Your task to perform on an android device: Search for a new bronzer Image 0: 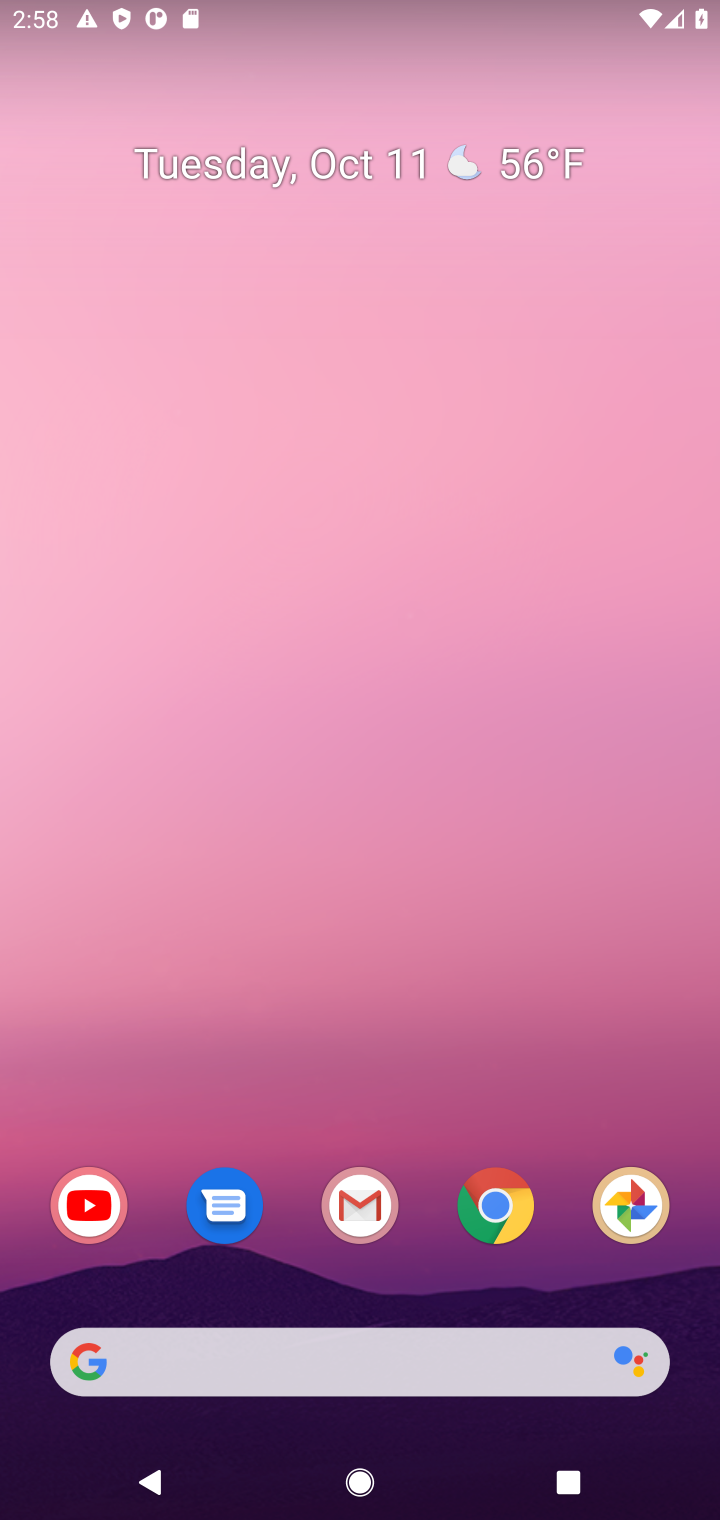
Step 0: press home button
Your task to perform on an android device: Search for a new bronzer Image 1: 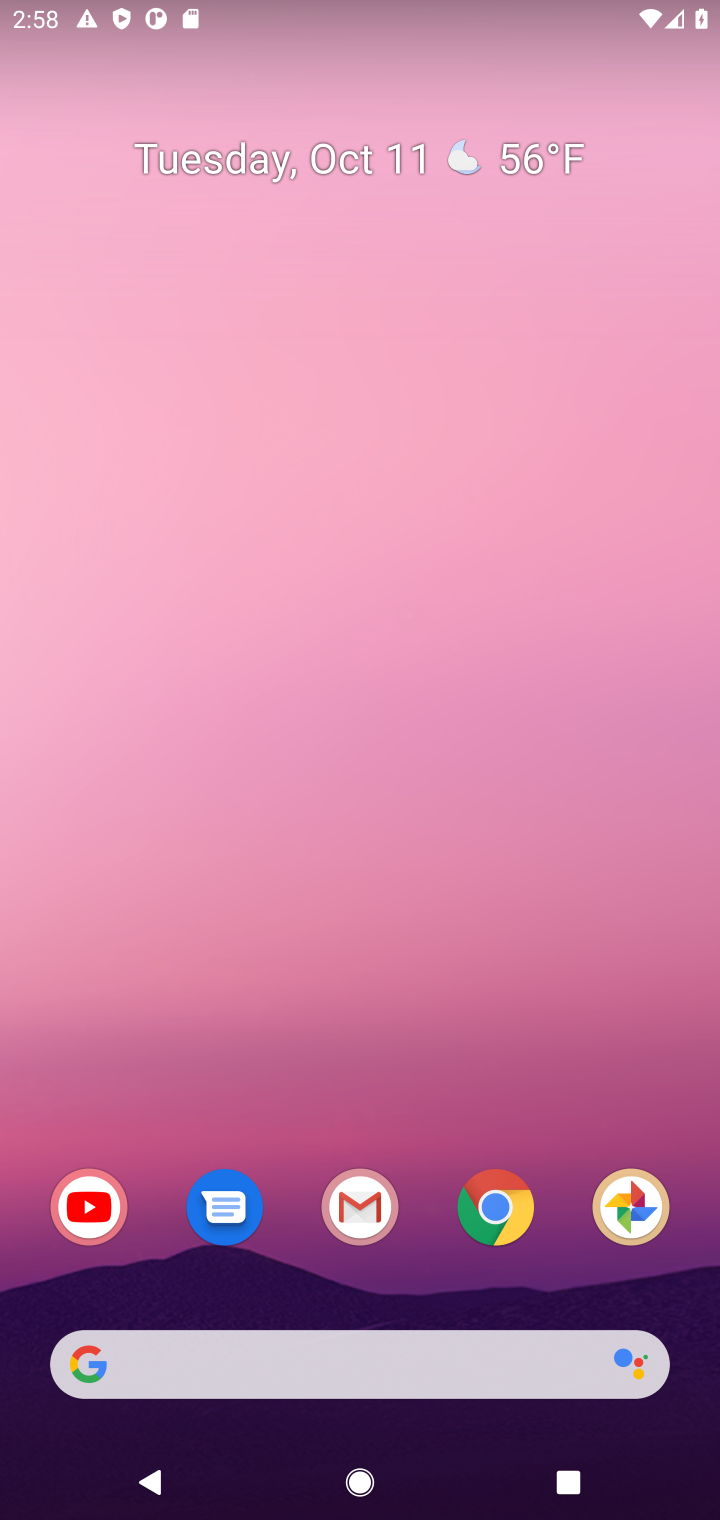
Step 1: drag from (392, 520) to (395, 187)
Your task to perform on an android device: Search for a new bronzer Image 2: 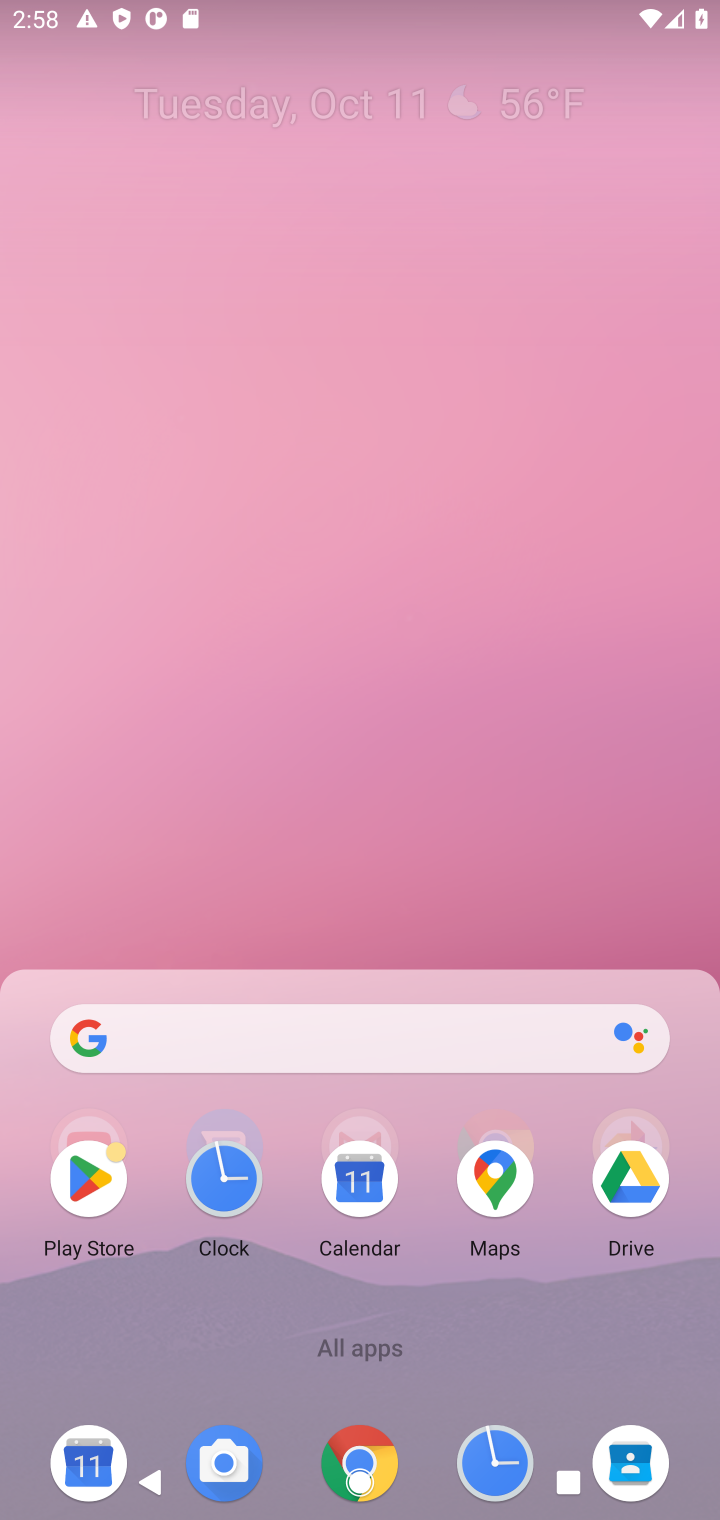
Step 2: drag from (305, 1078) to (478, 214)
Your task to perform on an android device: Search for a new bronzer Image 3: 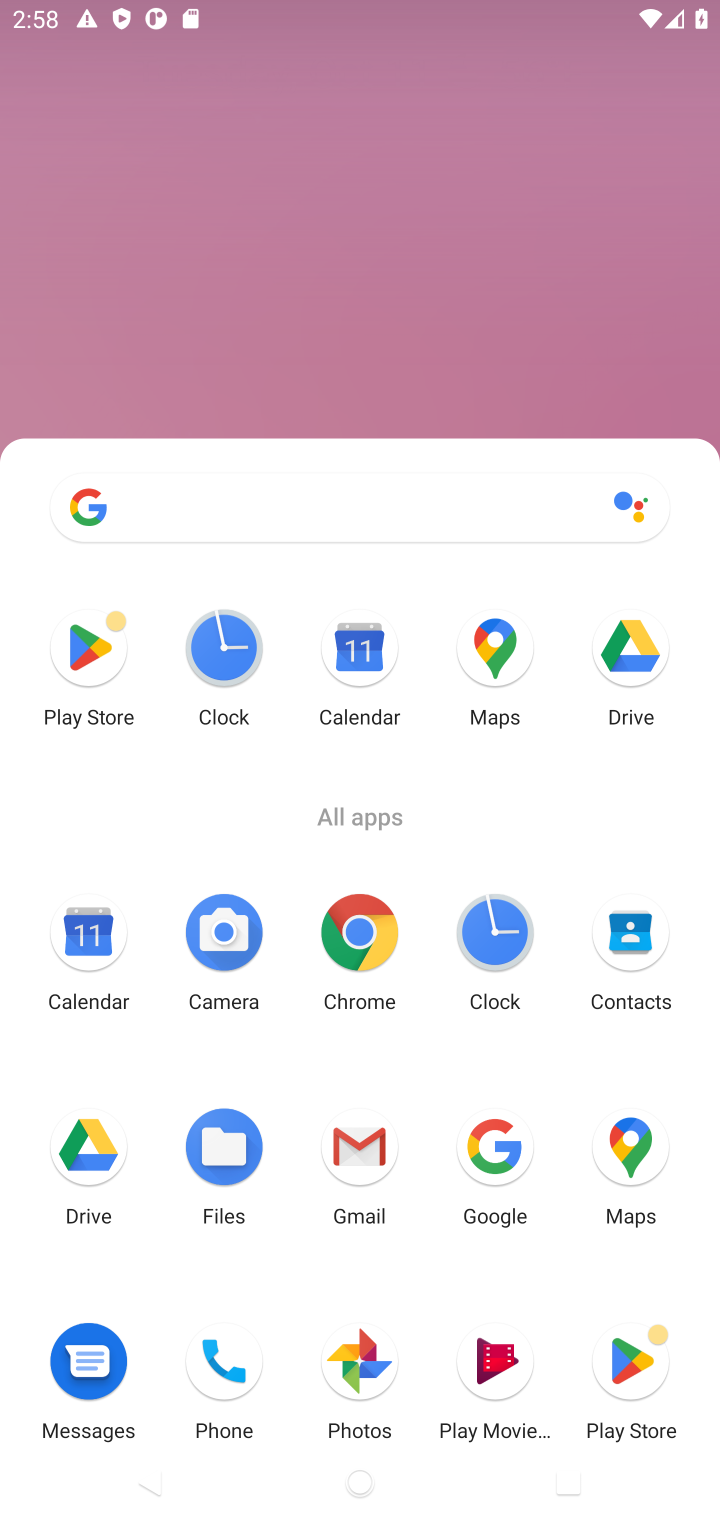
Step 3: drag from (355, 1203) to (644, 112)
Your task to perform on an android device: Search for a new bronzer Image 4: 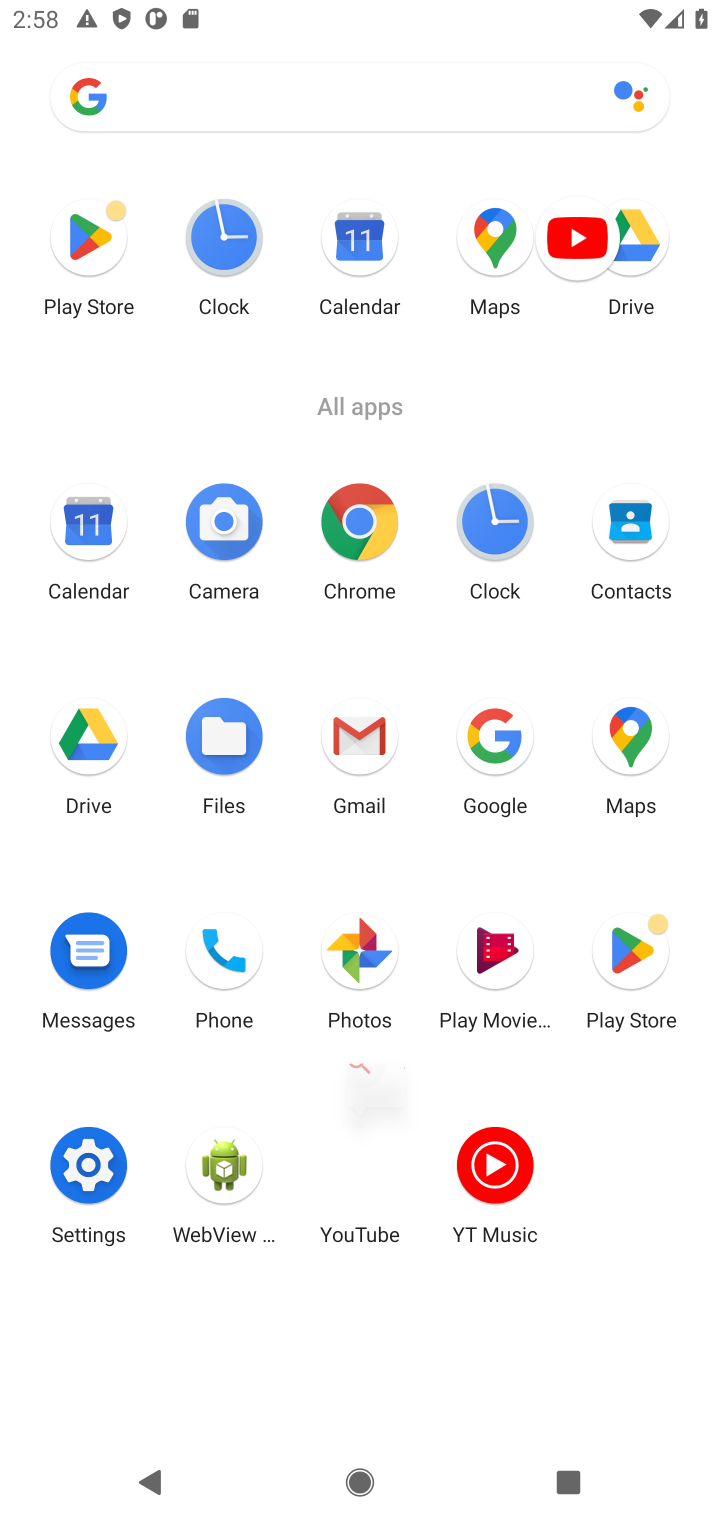
Step 4: click (245, 234)
Your task to perform on an android device: Search for a new bronzer Image 5: 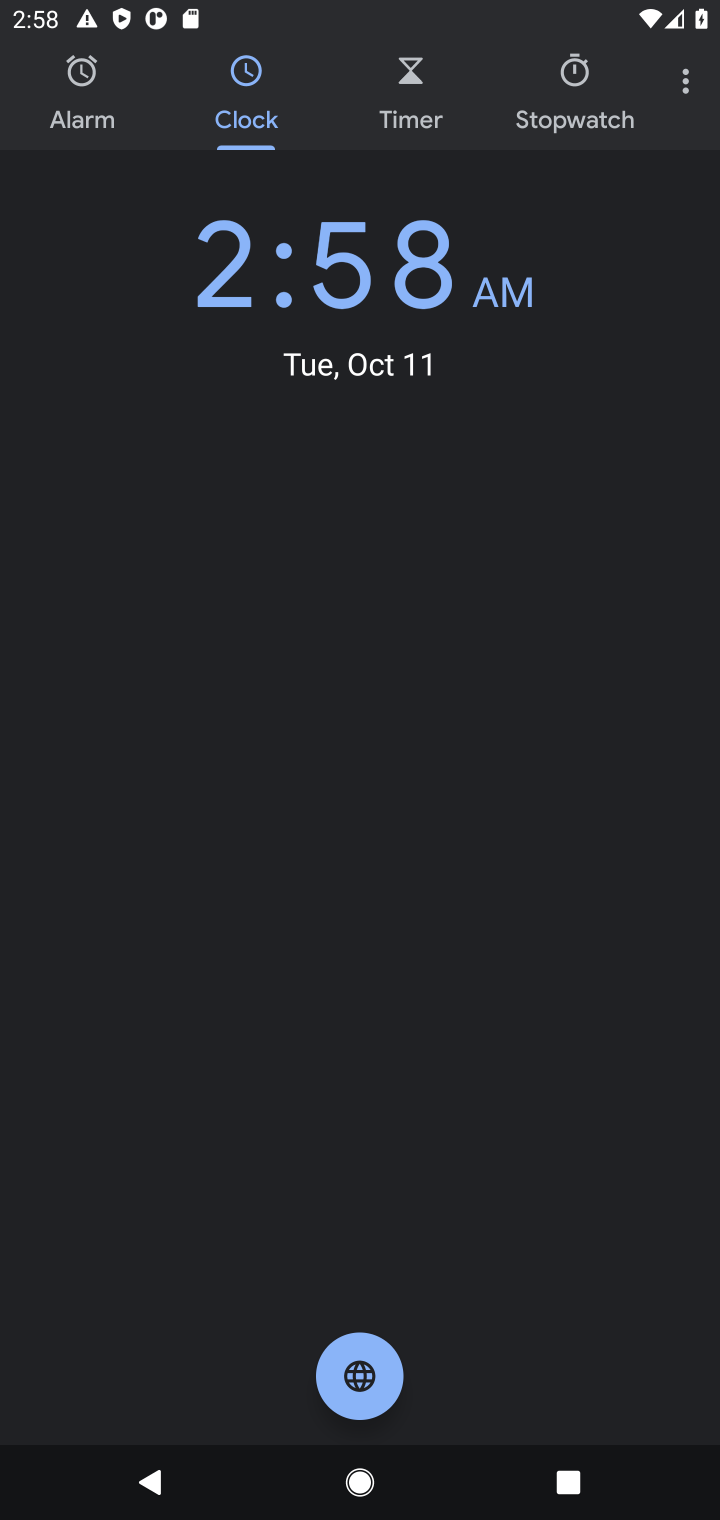
Step 5: press home button
Your task to perform on an android device: Search for a new bronzer Image 6: 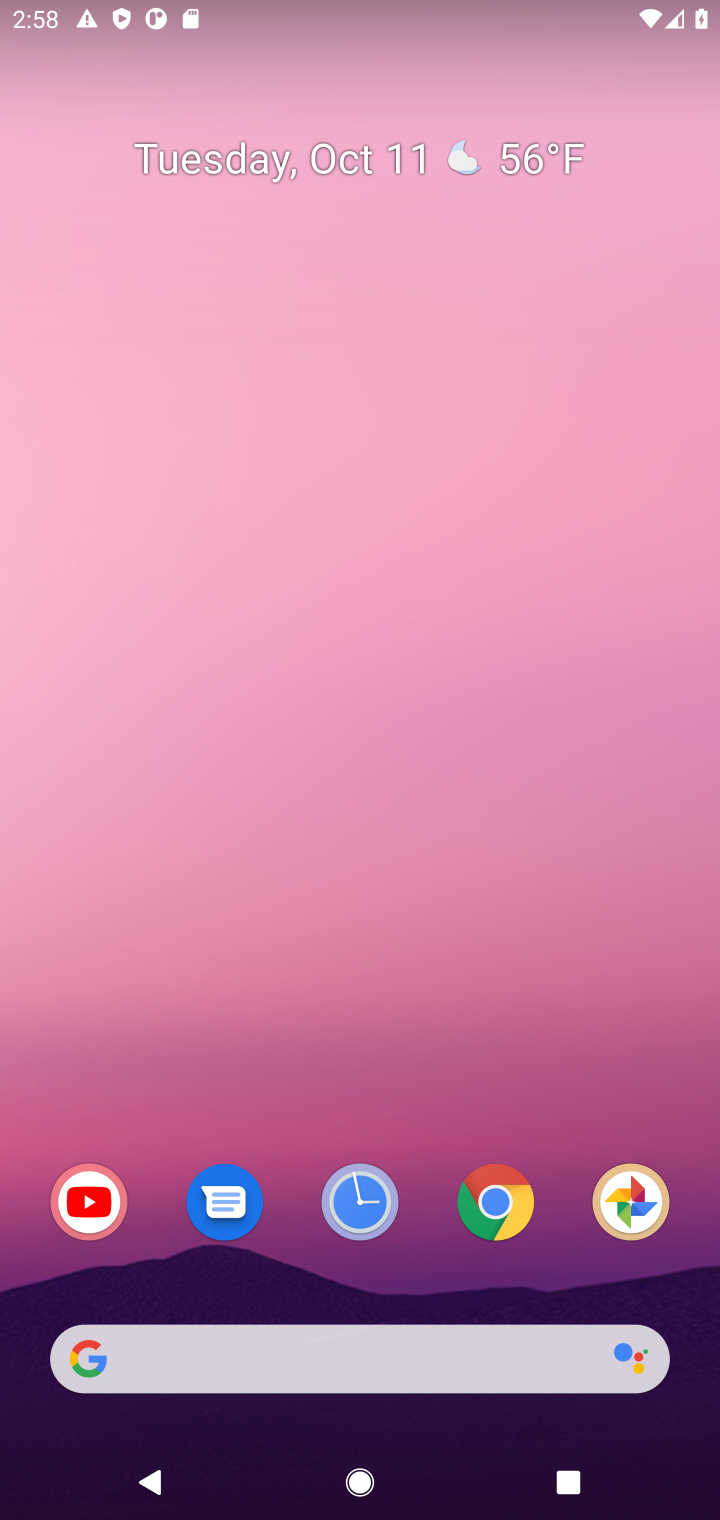
Step 6: click (496, 1201)
Your task to perform on an android device: Search for a new bronzer Image 7: 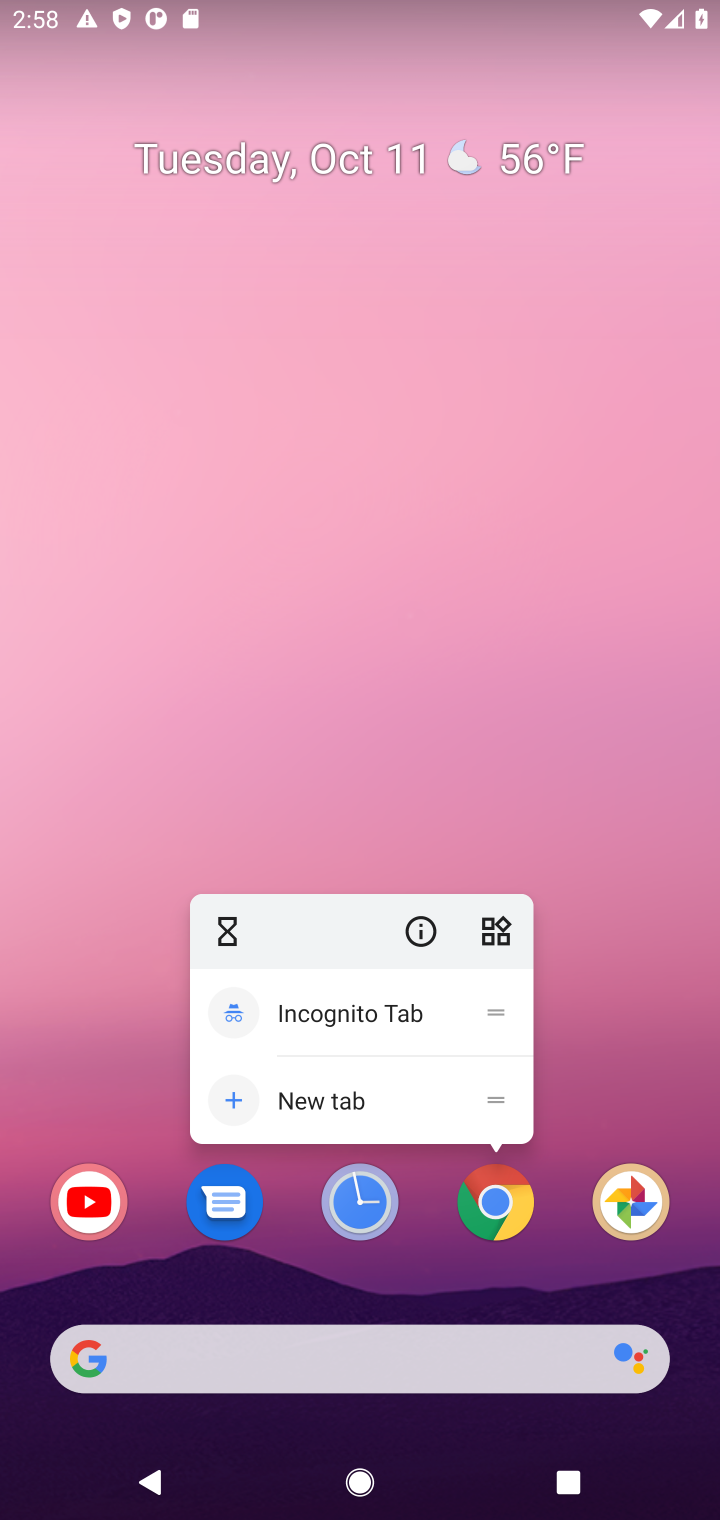
Step 7: click (486, 1209)
Your task to perform on an android device: Search for a new bronzer Image 8: 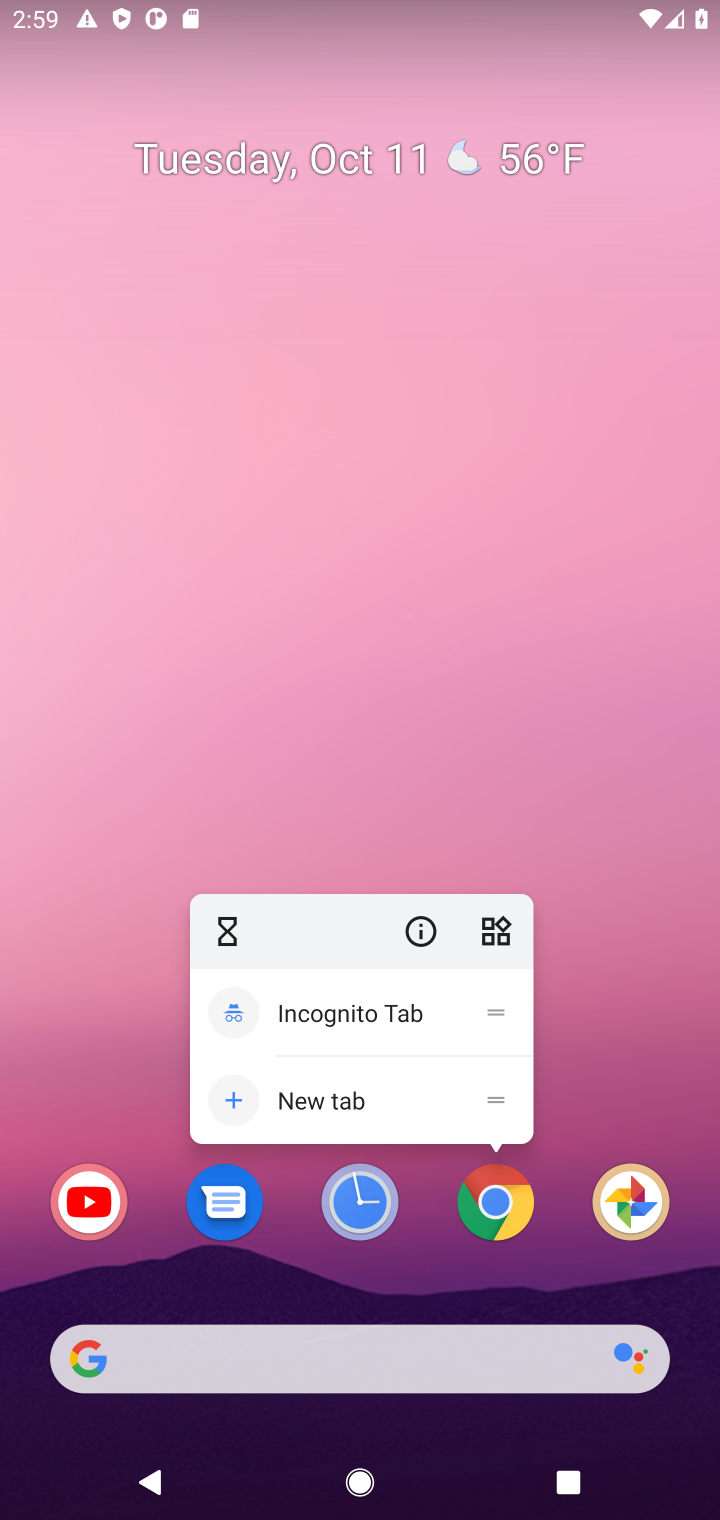
Step 8: click (484, 1210)
Your task to perform on an android device: Search for a new bronzer Image 9: 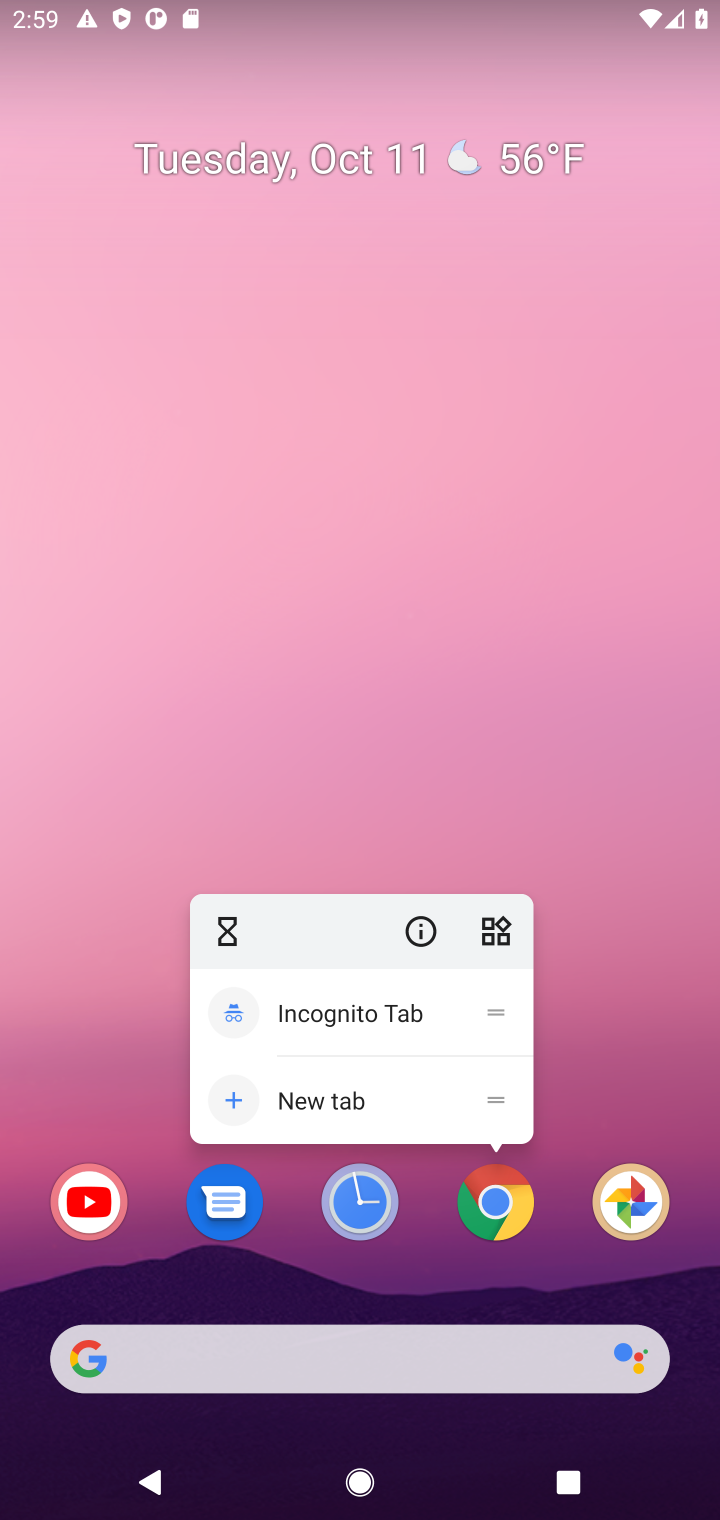
Step 9: click (502, 1225)
Your task to perform on an android device: Search for a new bronzer Image 10: 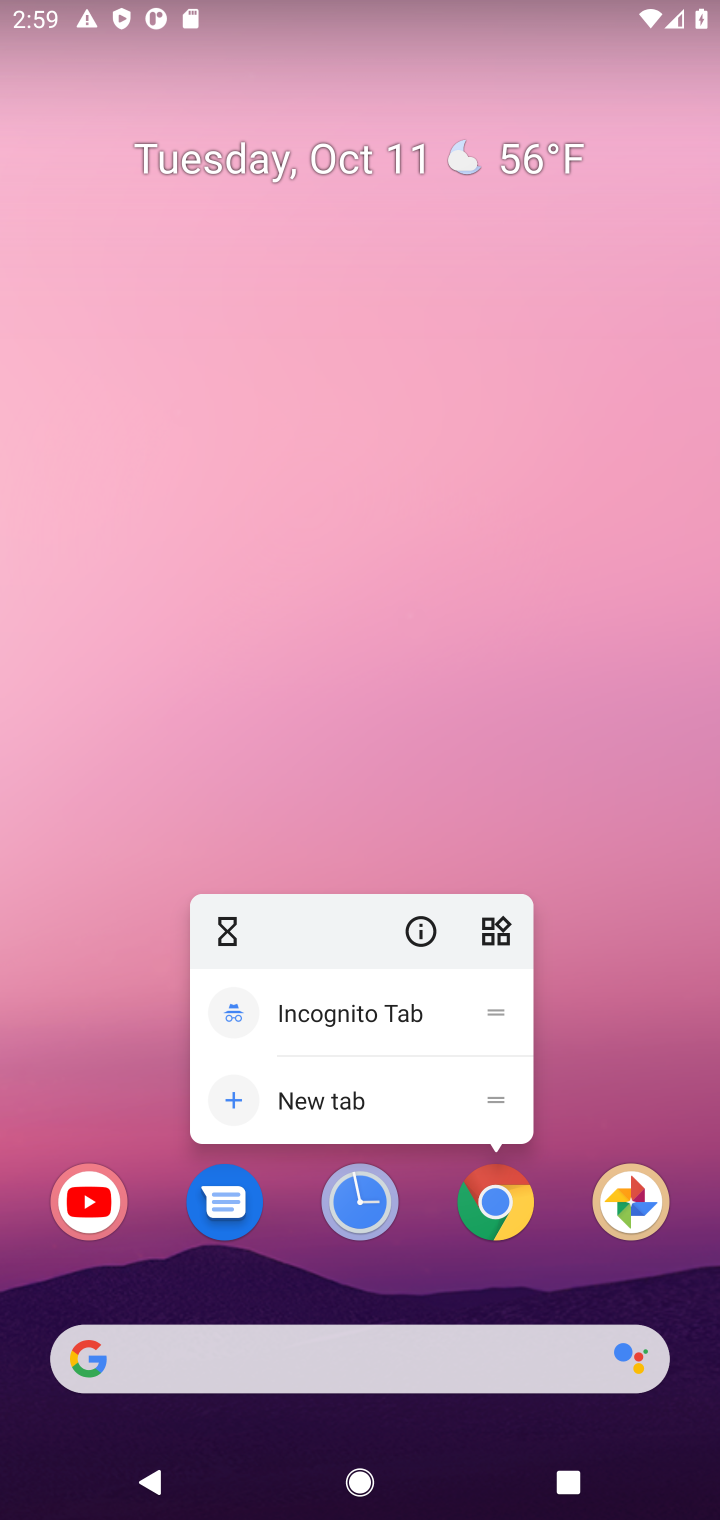
Step 10: click (502, 1225)
Your task to perform on an android device: Search for a new bronzer Image 11: 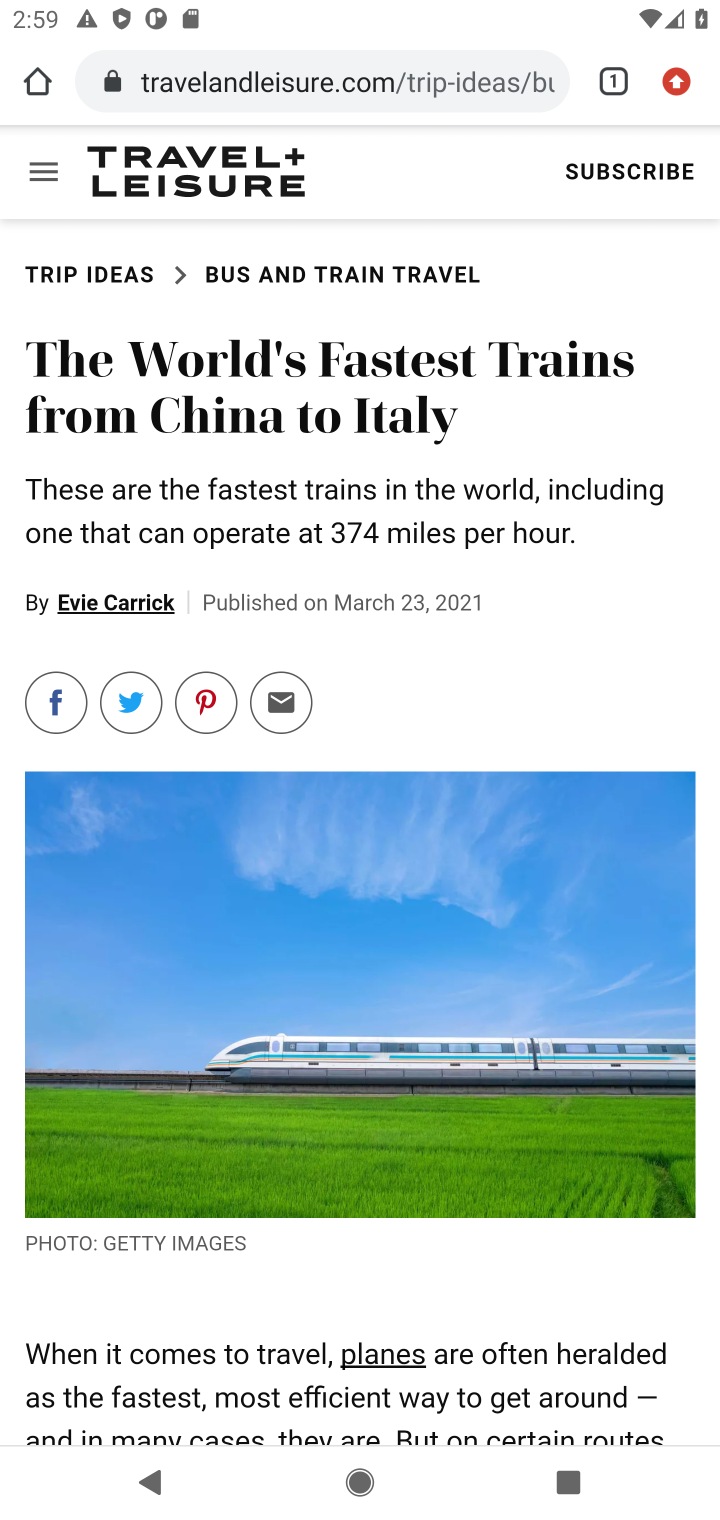
Step 11: click (302, 76)
Your task to perform on an android device: Search for a new bronzer Image 12: 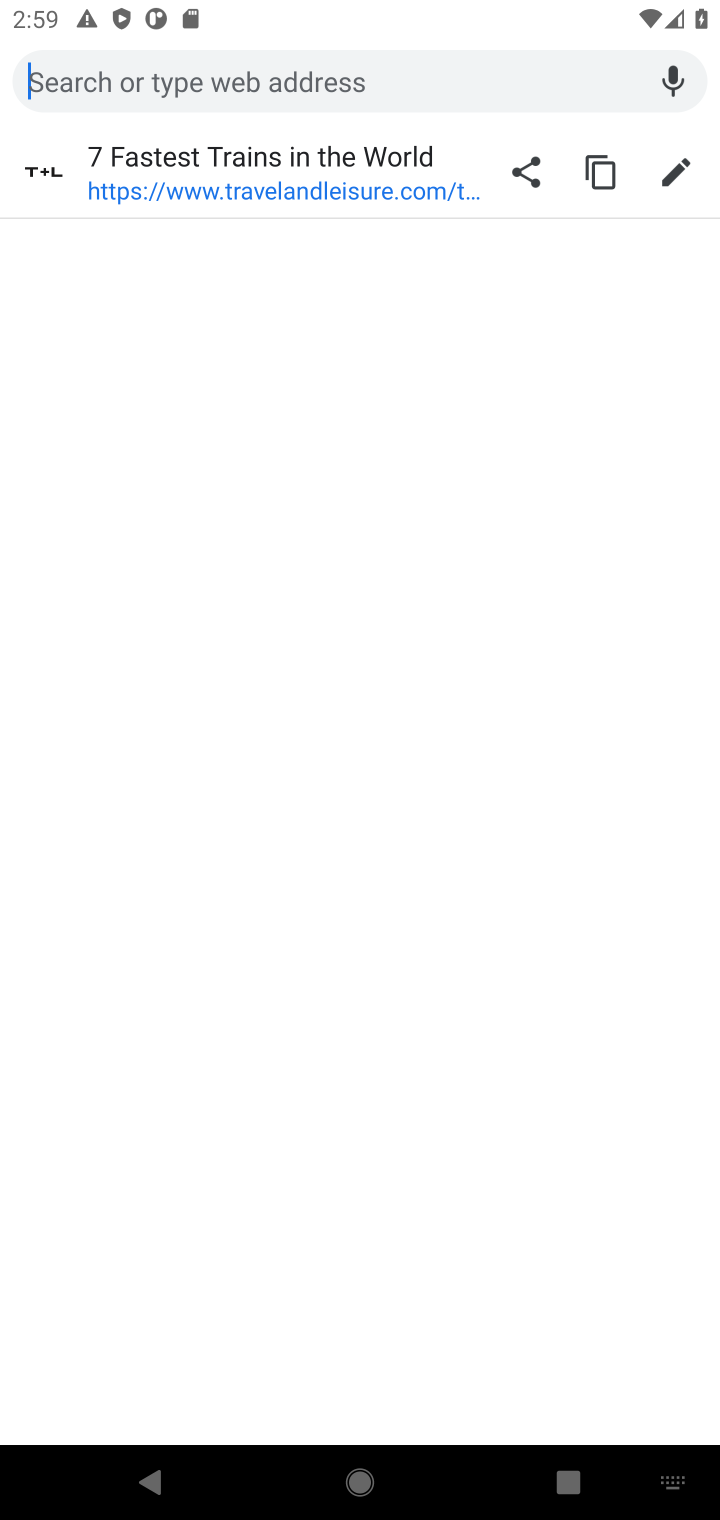
Step 12: type "a new bronzer"
Your task to perform on an android device: Search for a new bronzer Image 13: 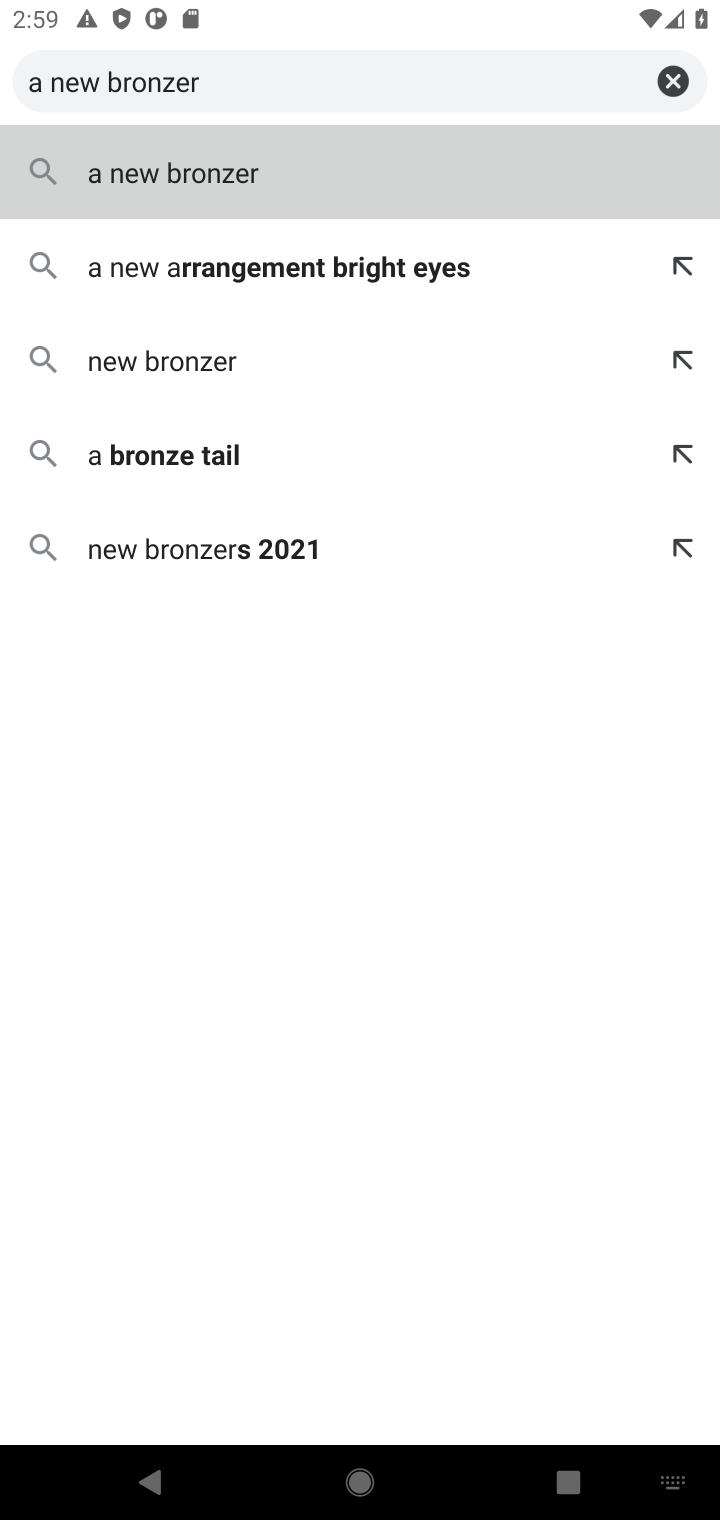
Step 13: type ""
Your task to perform on an android device: Search for a new bronzer Image 14: 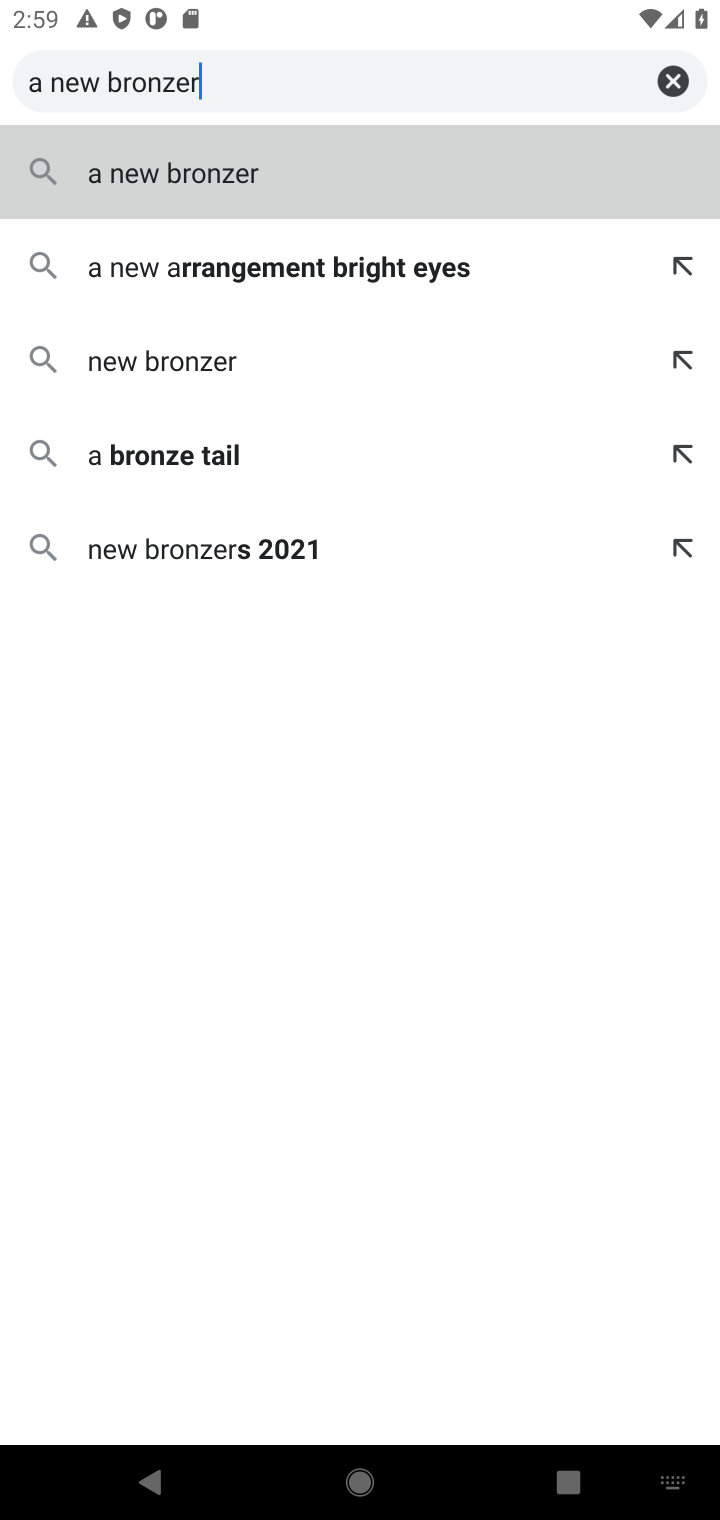
Step 14: click (143, 151)
Your task to perform on an android device: Search for a new bronzer Image 15: 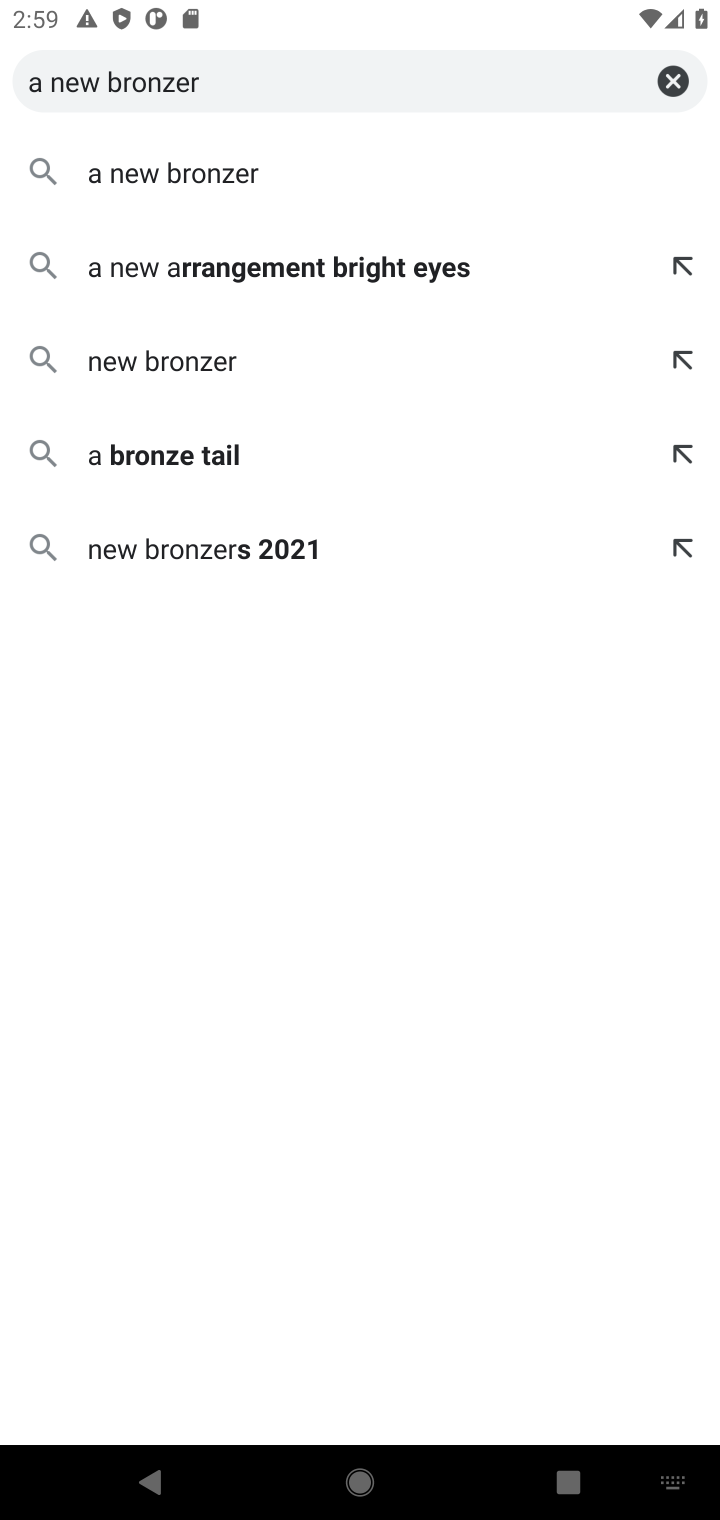
Step 15: click (128, 224)
Your task to perform on an android device: Search for a new bronzer Image 16: 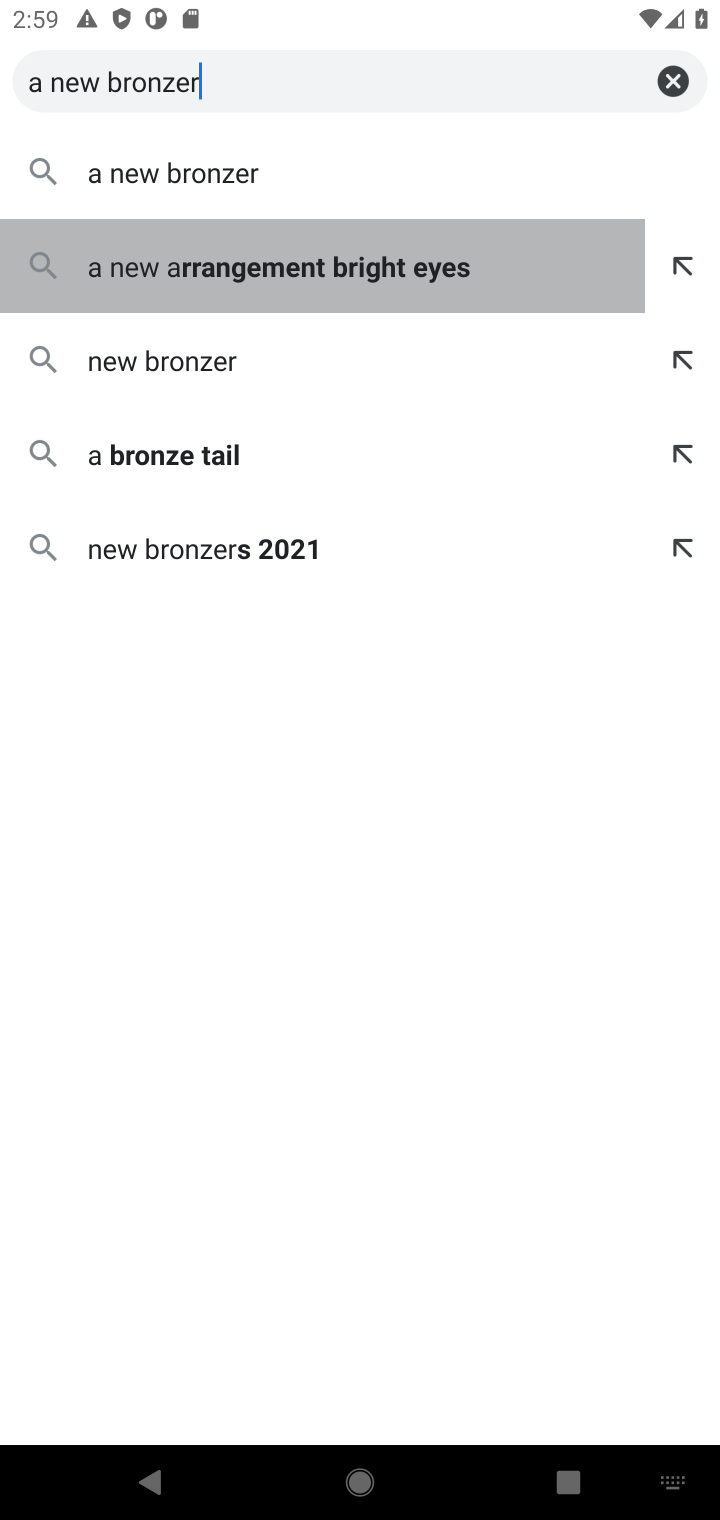
Step 16: click (148, 201)
Your task to perform on an android device: Search for a new bronzer Image 17: 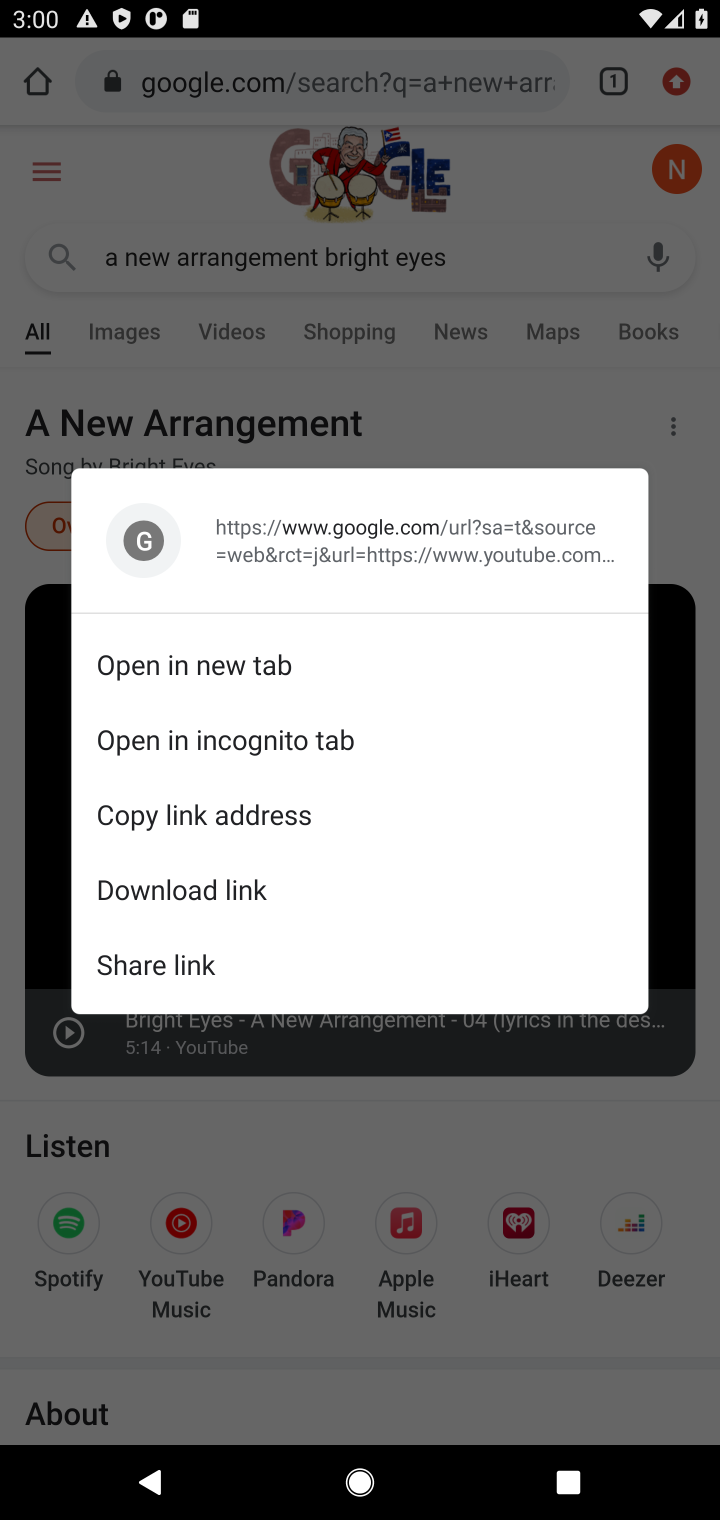
Step 17: click (605, 399)
Your task to perform on an android device: Search for a new bronzer Image 18: 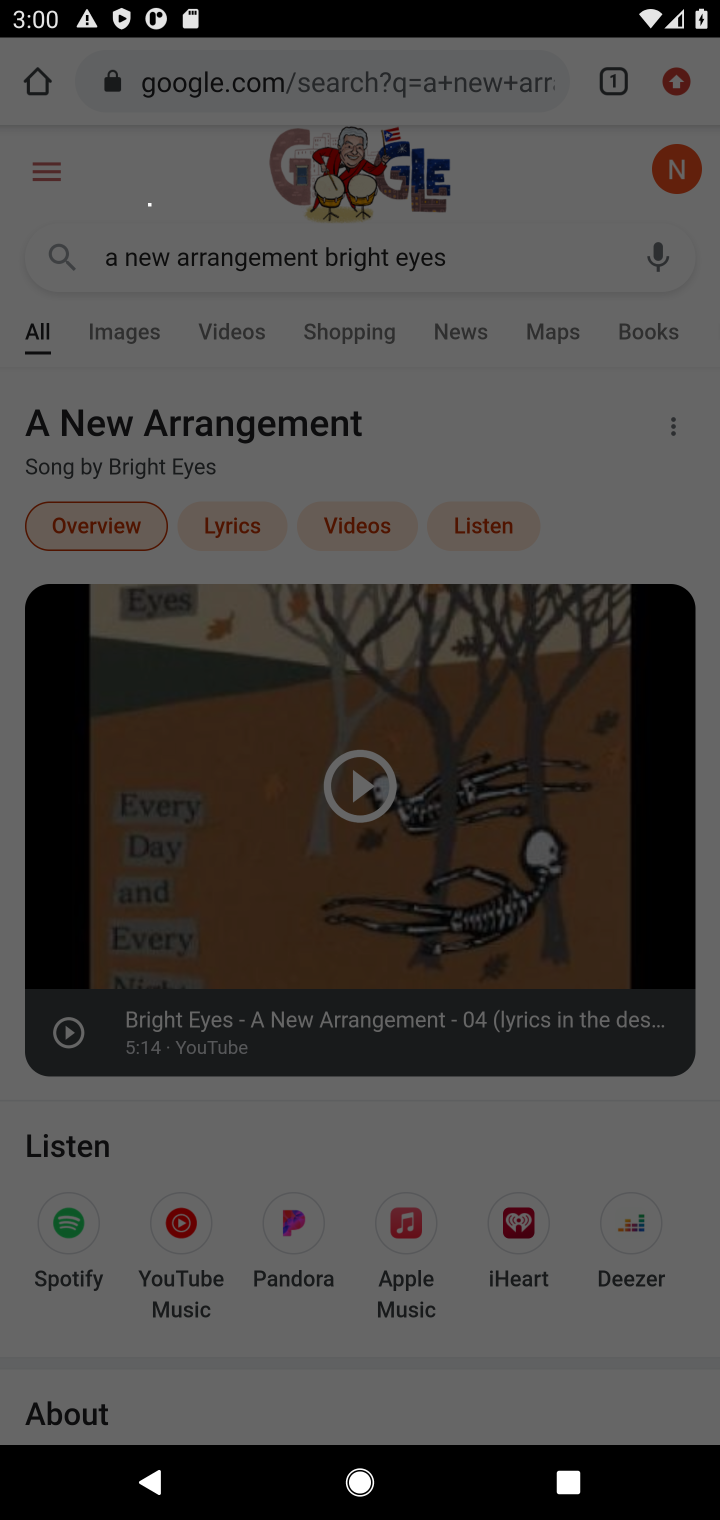
Step 18: click (510, 75)
Your task to perform on an android device: Search for a new bronzer Image 19: 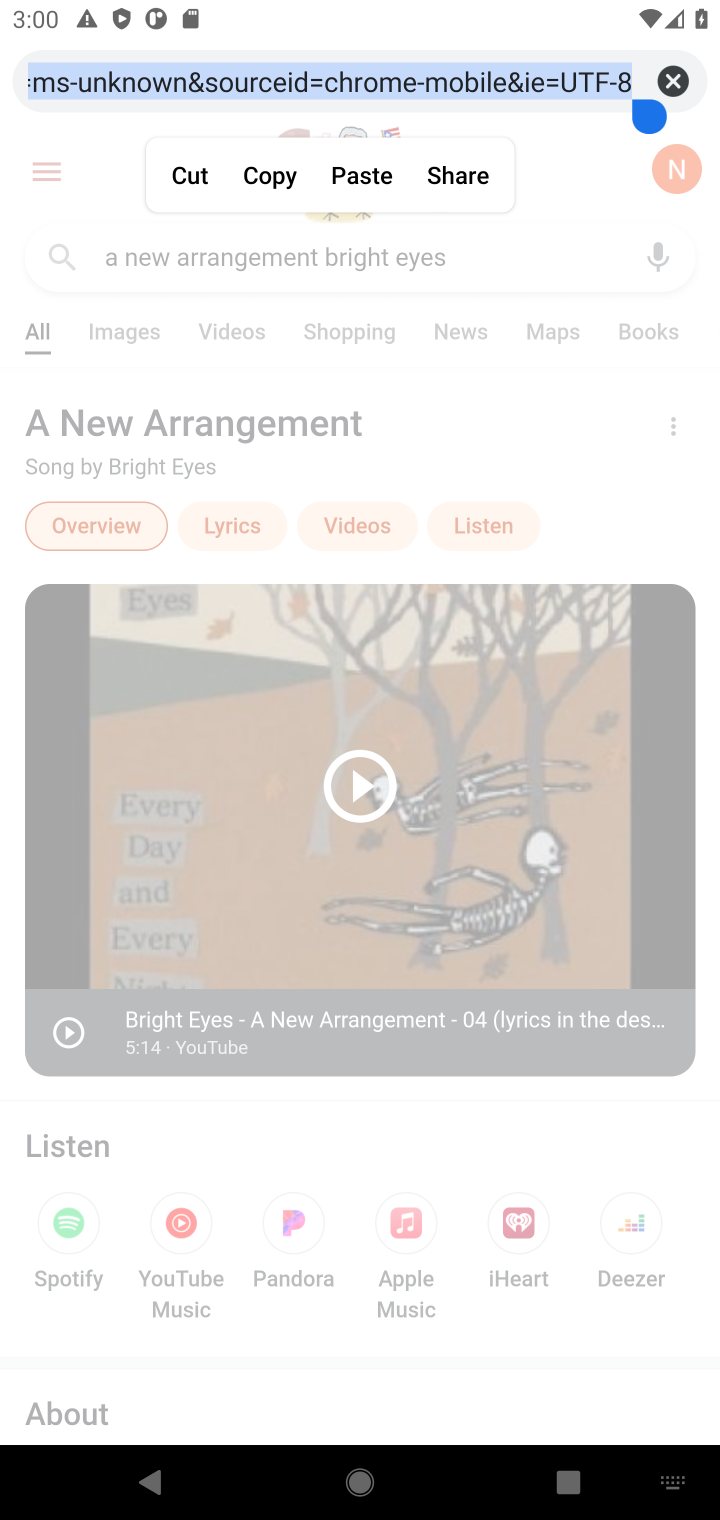
Step 19: type "a new bronzer"
Your task to perform on an android device: Search for a new bronzer Image 20: 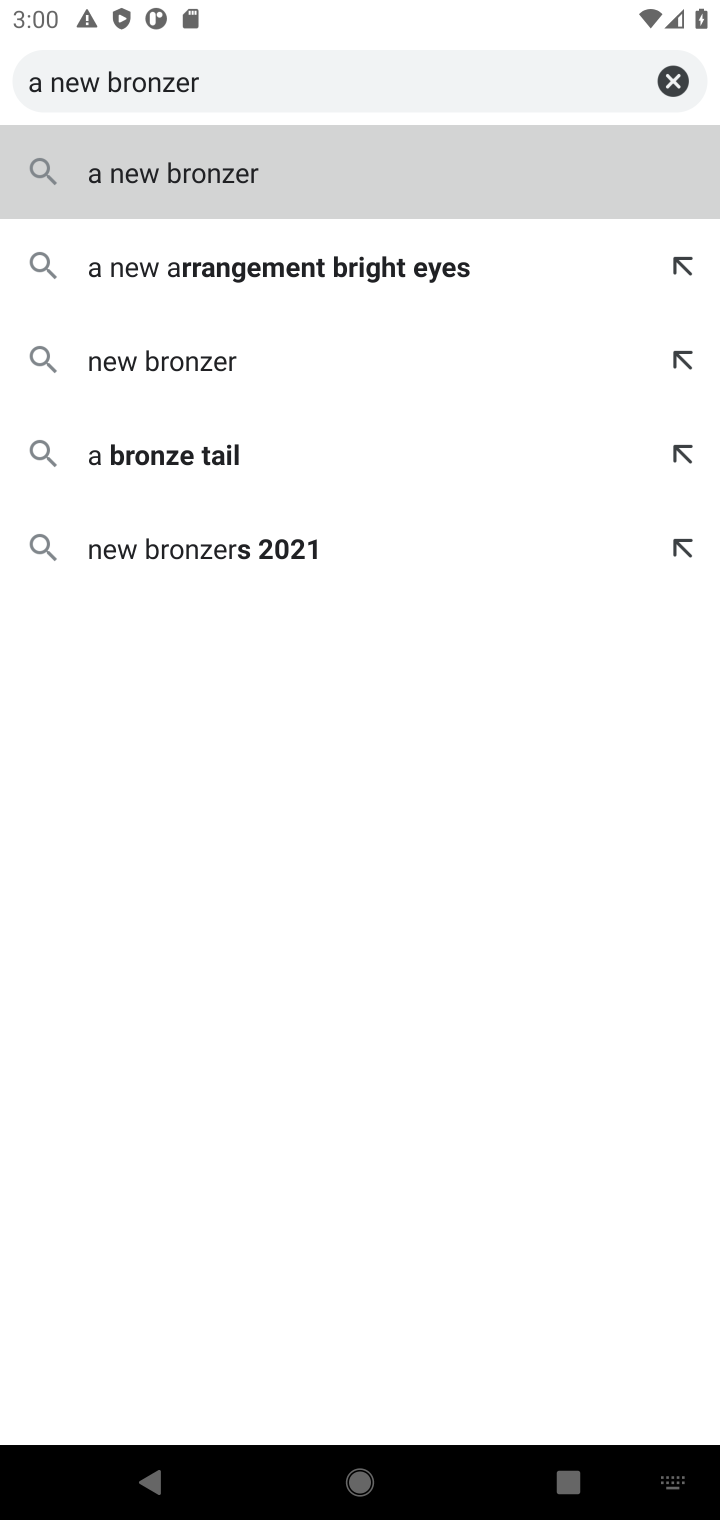
Step 20: type ""
Your task to perform on an android device: Search for a new bronzer Image 21: 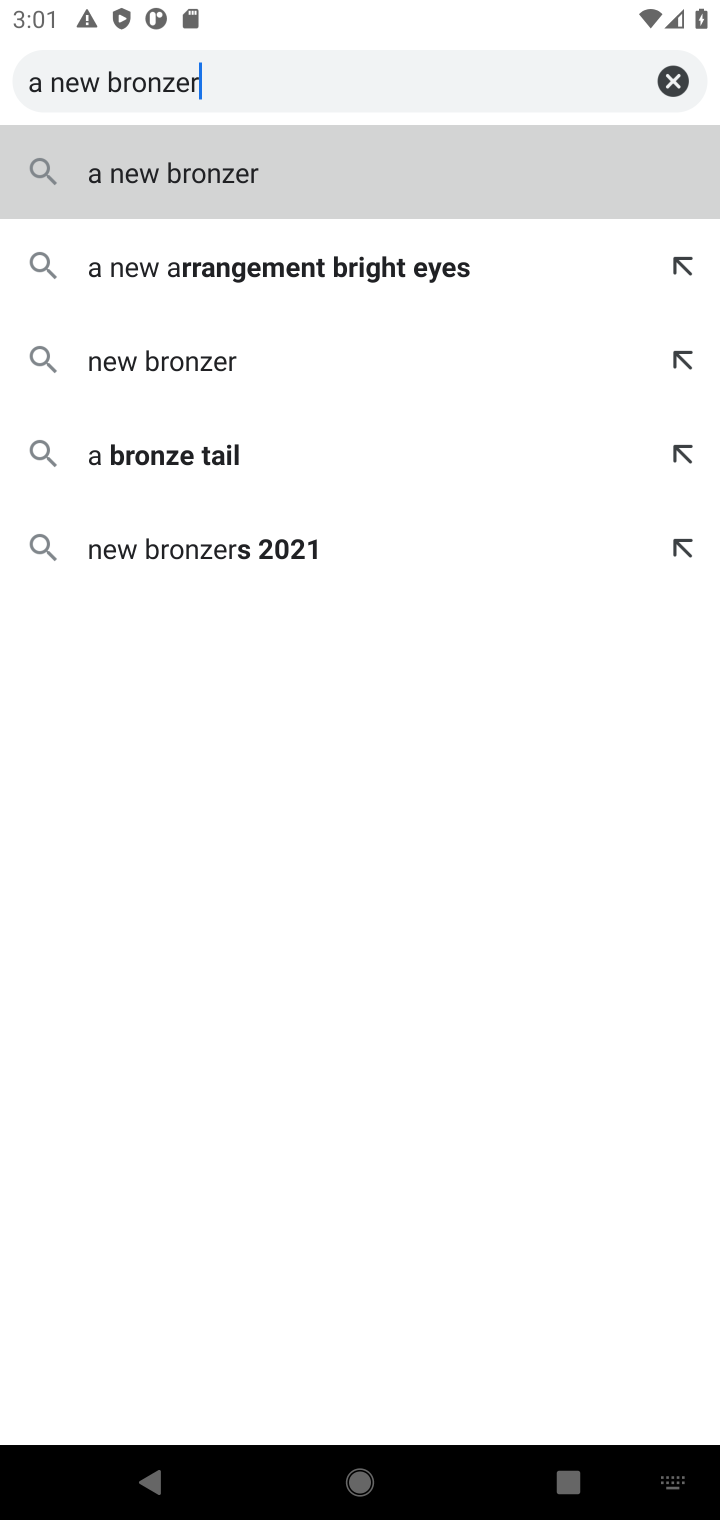
Step 21: press enter
Your task to perform on an android device: Search for a new bronzer Image 22: 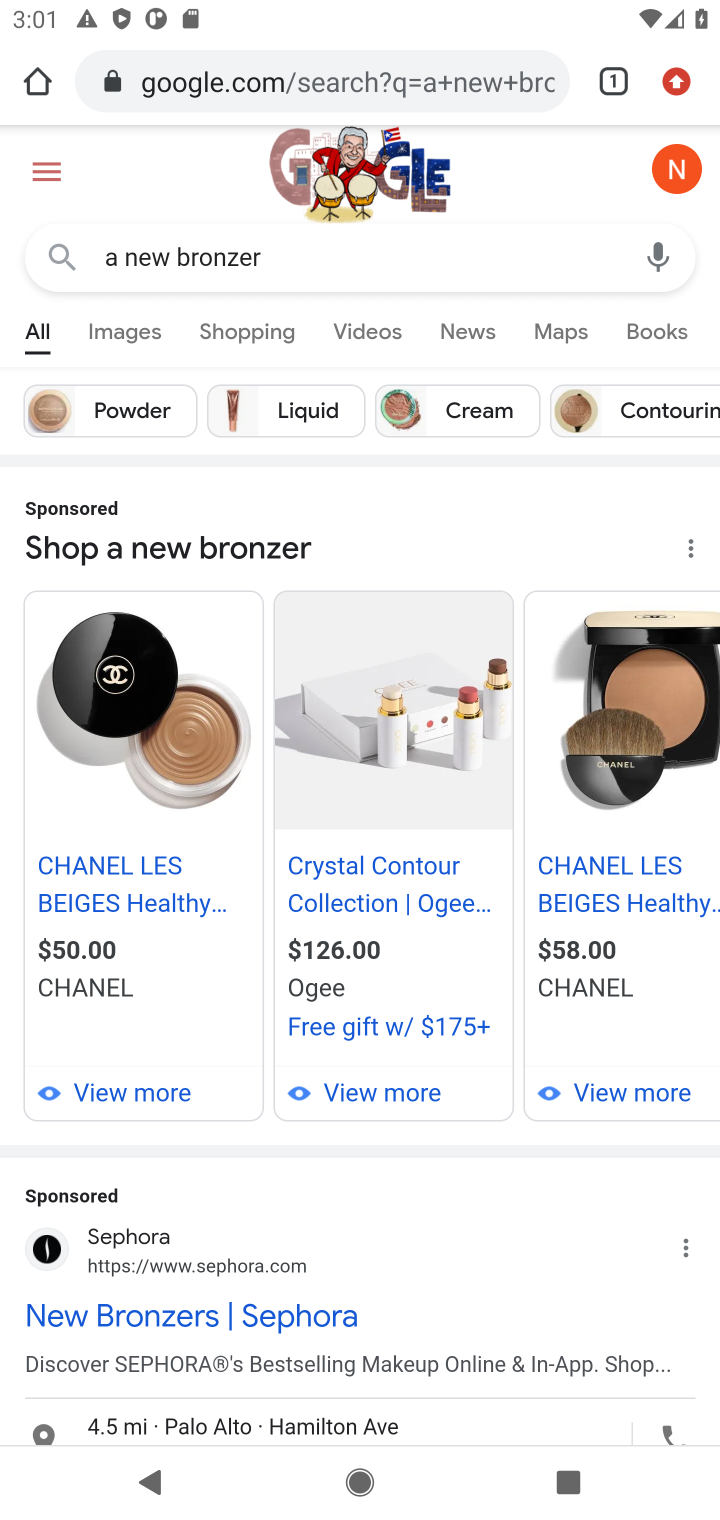
Step 22: click (280, 1322)
Your task to perform on an android device: Search for a new bronzer Image 23: 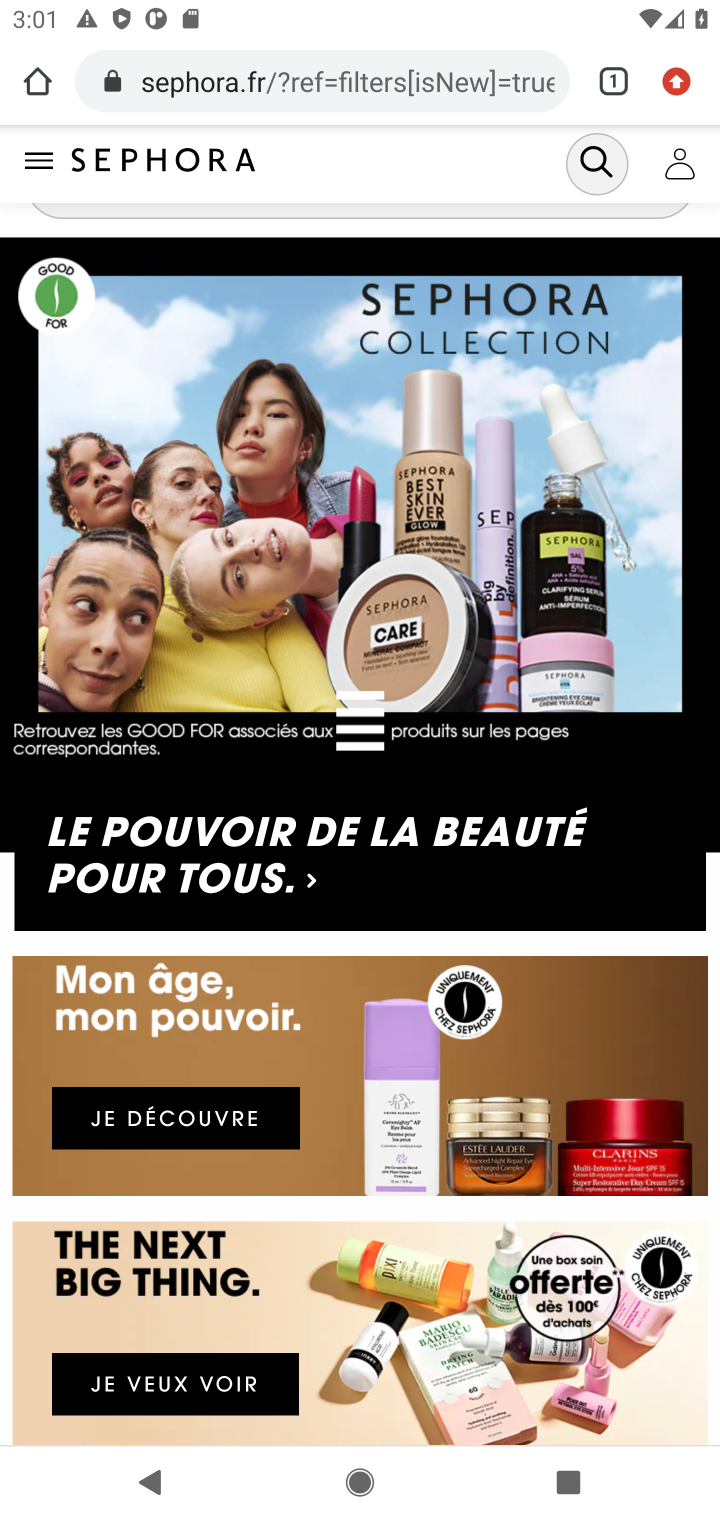
Step 23: click (376, 454)
Your task to perform on an android device: Search for a new bronzer Image 24: 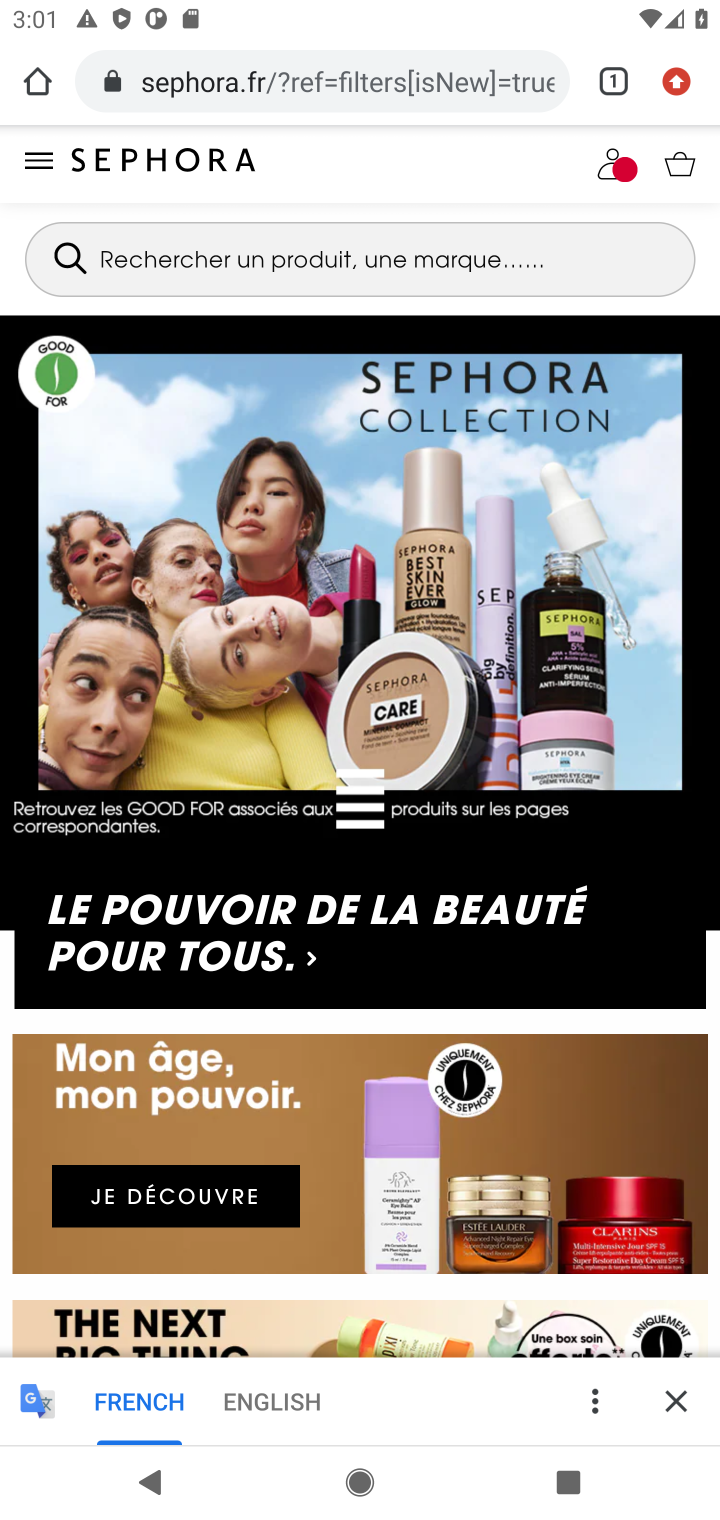
Step 24: drag from (353, 596) to (461, 475)
Your task to perform on an android device: Search for a new bronzer Image 25: 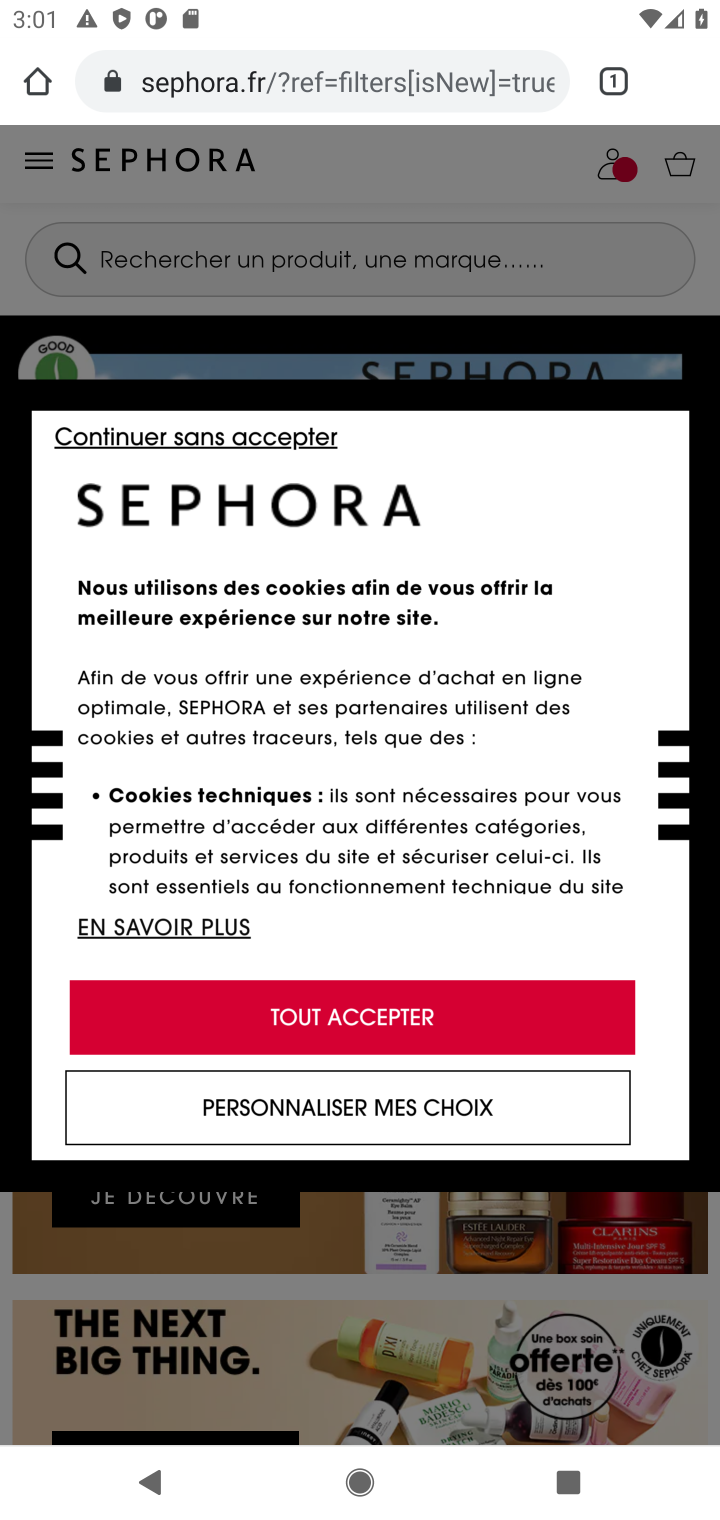
Step 25: drag from (535, 605) to (560, 505)
Your task to perform on an android device: Search for a new bronzer Image 26: 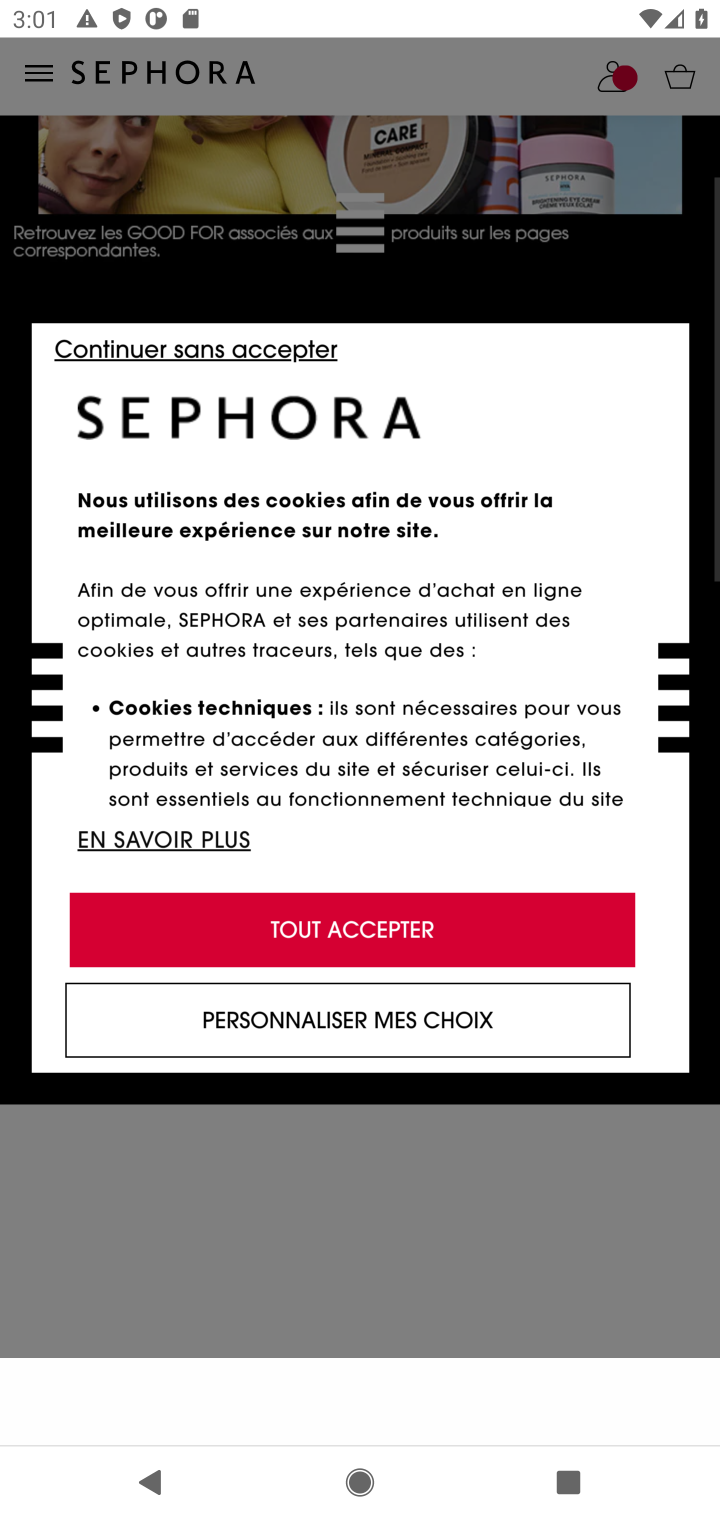
Step 26: drag from (594, 828) to (678, 433)
Your task to perform on an android device: Search for a new bronzer Image 27: 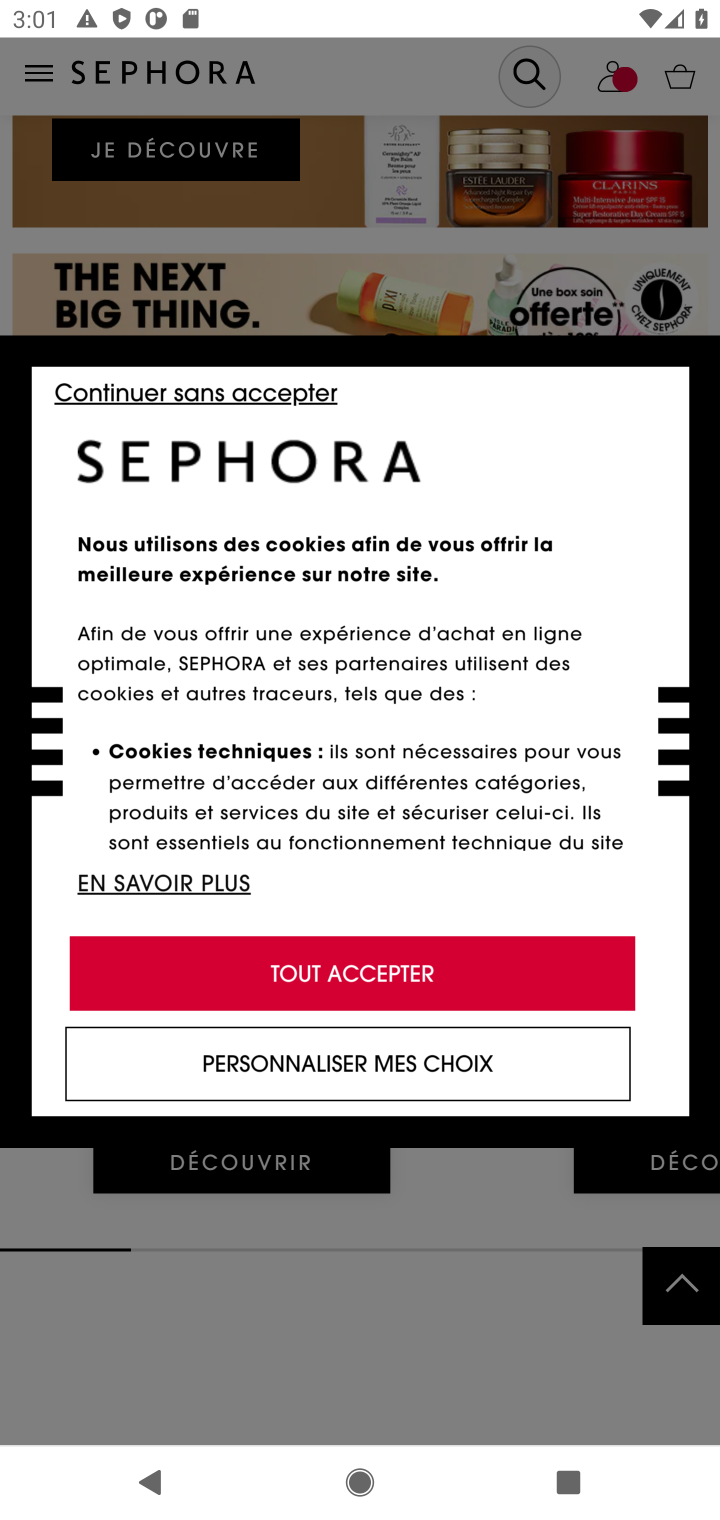
Step 27: drag from (462, 1087) to (560, 416)
Your task to perform on an android device: Search for a new bronzer Image 28: 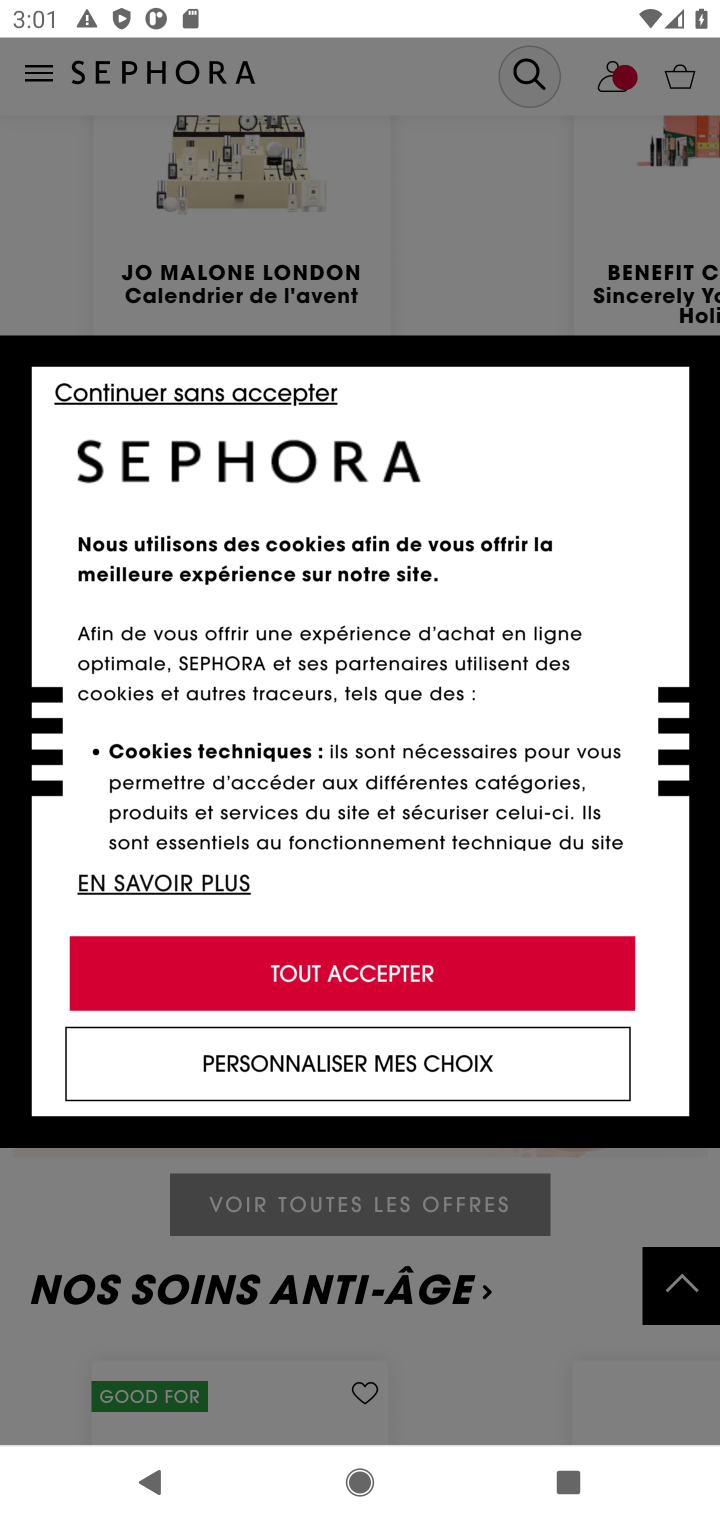
Step 28: click (474, 964)
Your task to perform on an android device: Search for a new bronzer Image 29: 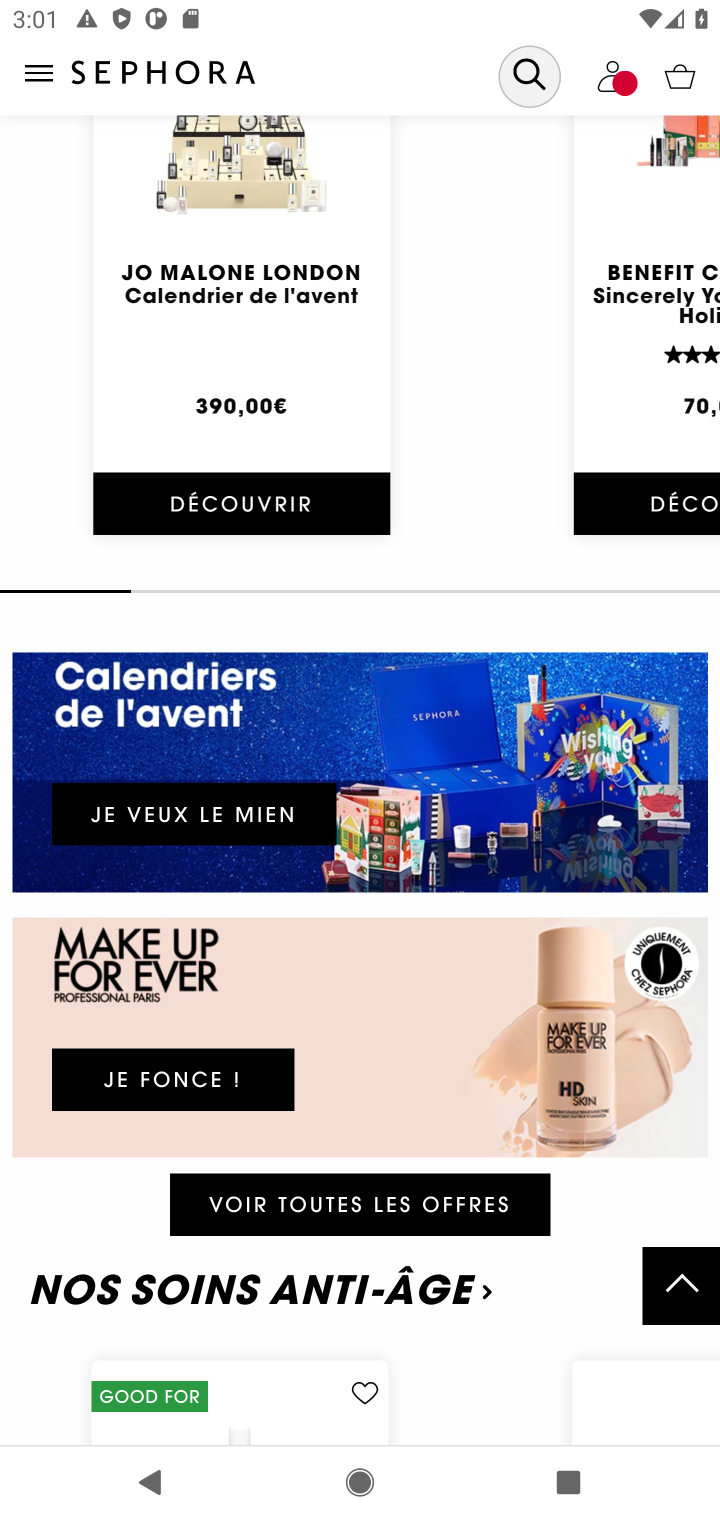
Step 29: drag from (495, 956) to (606, 283)
Your task to perform on an android device: Search for a new bronzer Image 30: 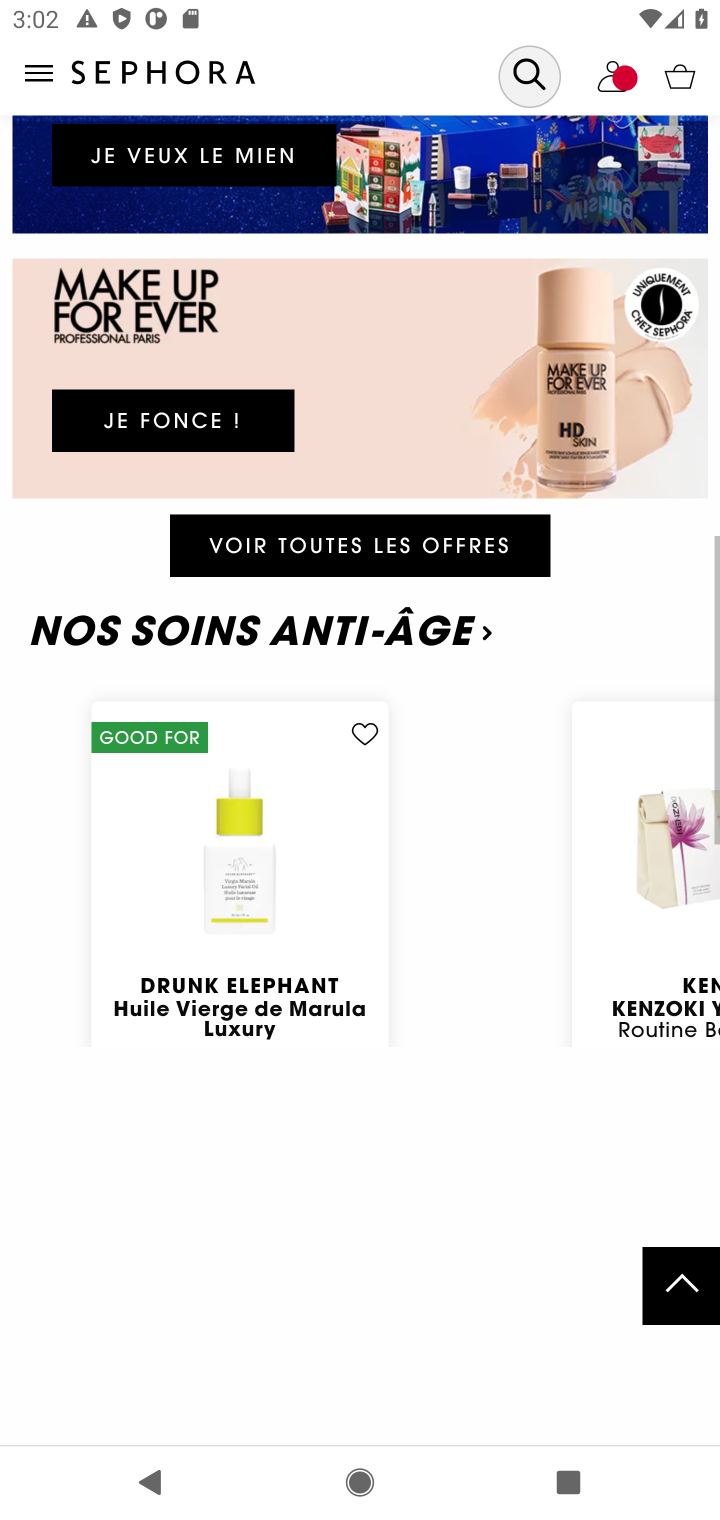
Step 30: drag from (597, 560) to (575, 277)
Your task to perform on an android device: Search for a new bronzer Image 31: 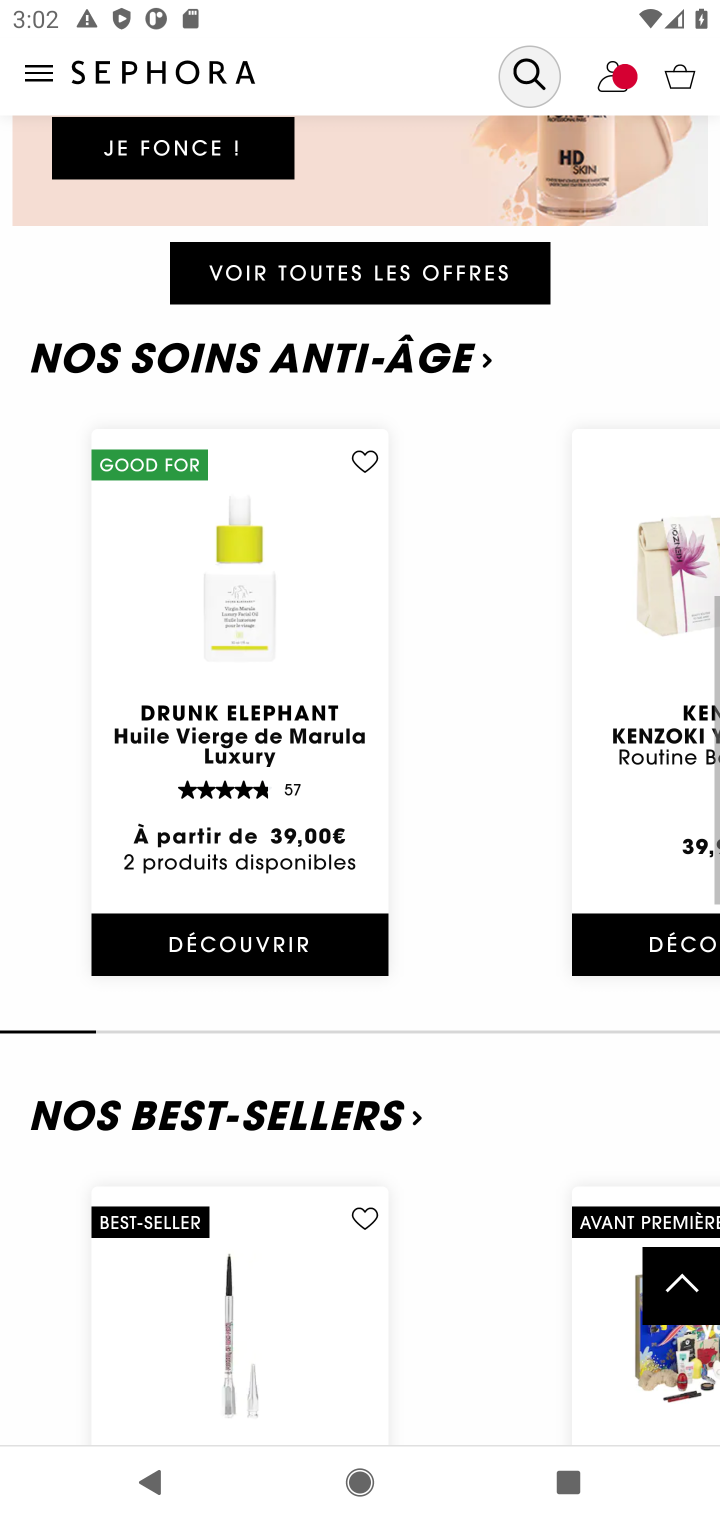
Step 31: drag from (403, 496) to (407, 211)
Your task to perform on an android device: Search for a new bronzer Image 32: 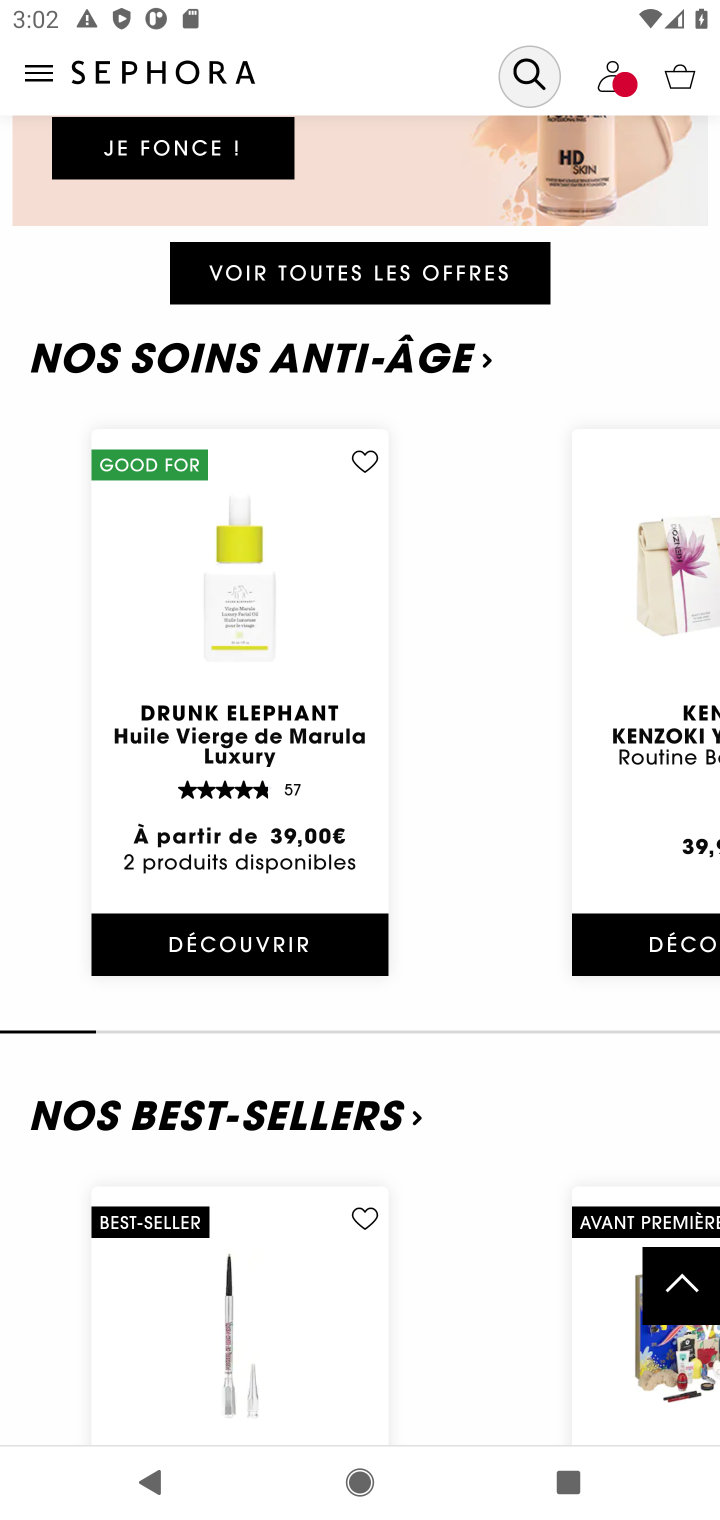
Step 32: drag from (416, 639) to (401, 294)
Your task to perform on an android device: Search for a new bronzer Image 33: 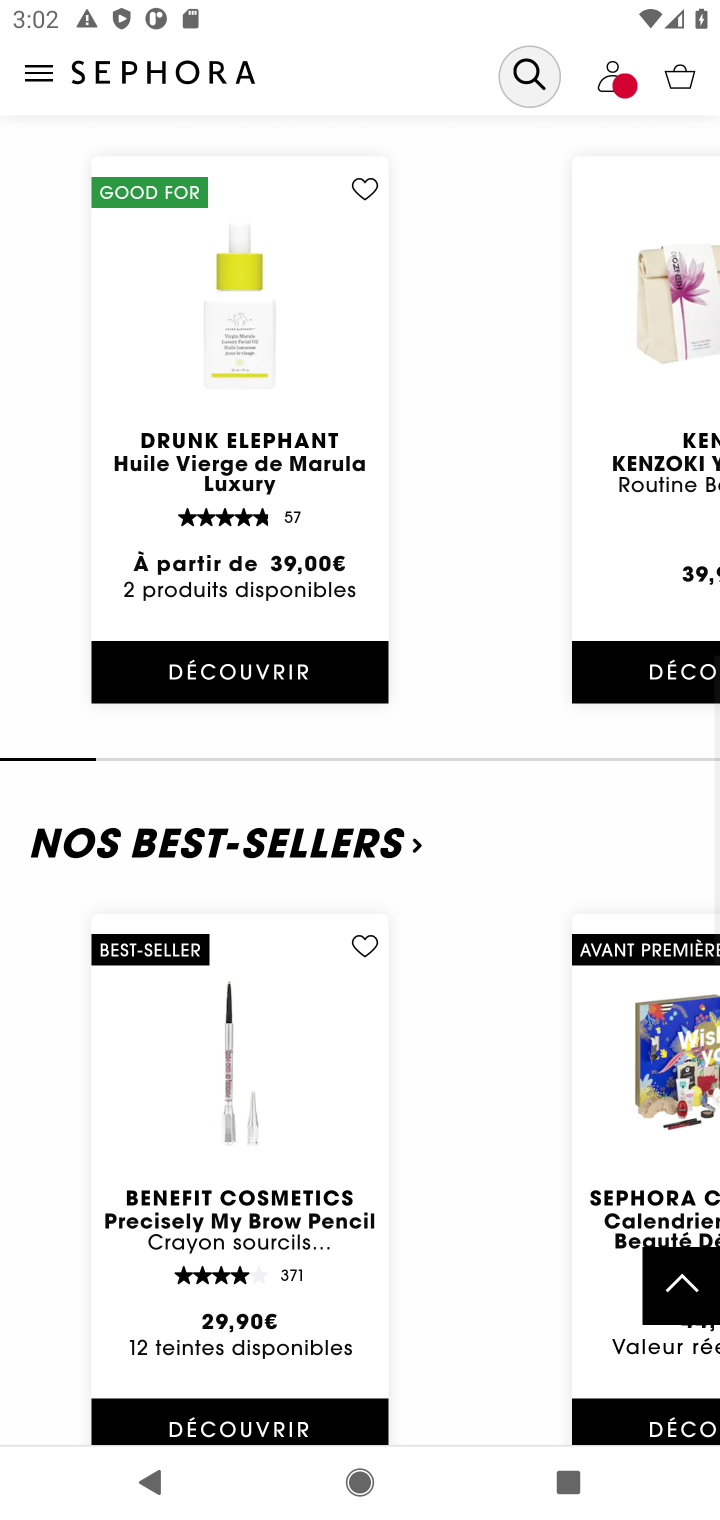
Step 33: drag from (349, 853) to (369, 237)
Your task to perform on an android device: Search for a new bronzer Image 34: 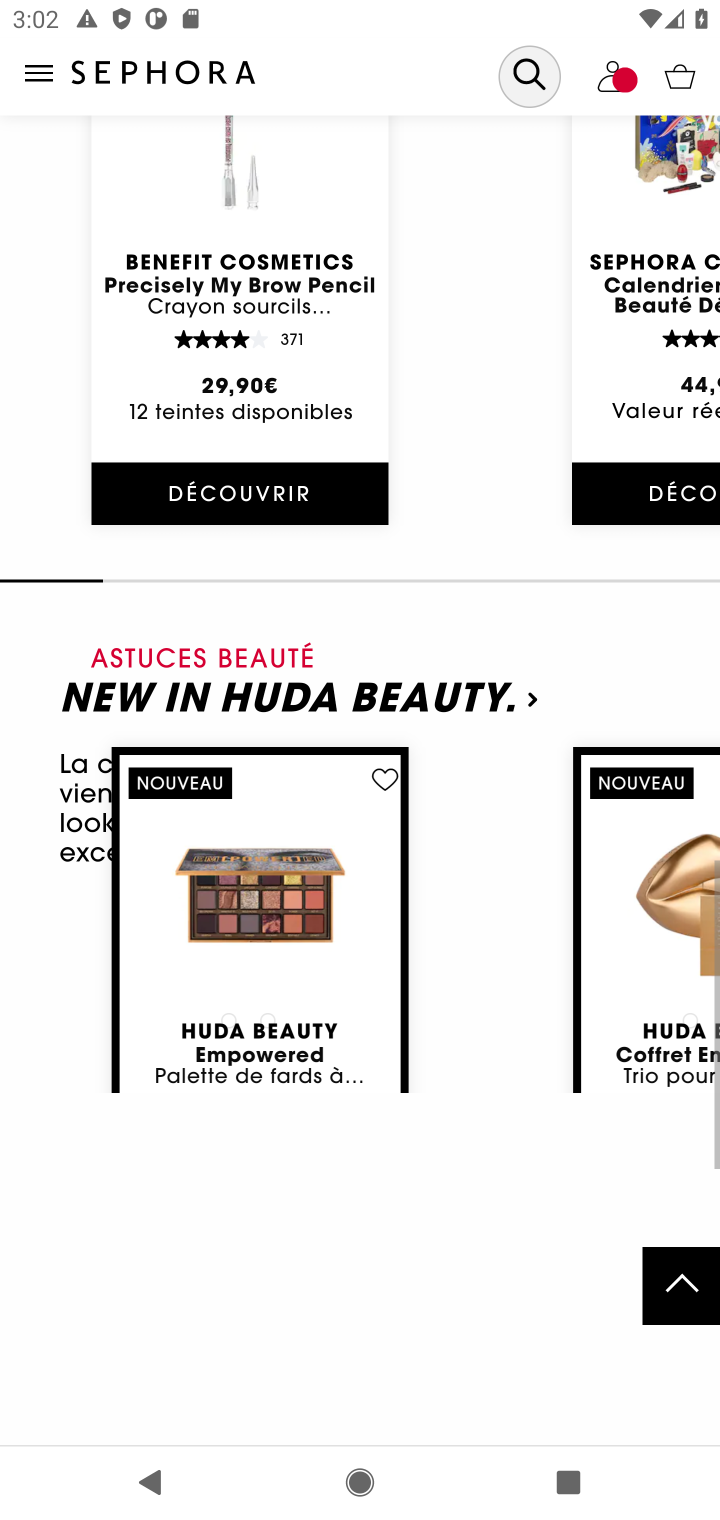
Step 34: click (355, 281)
Your task to perform on an android device: Search for a new bronzer Image 35: 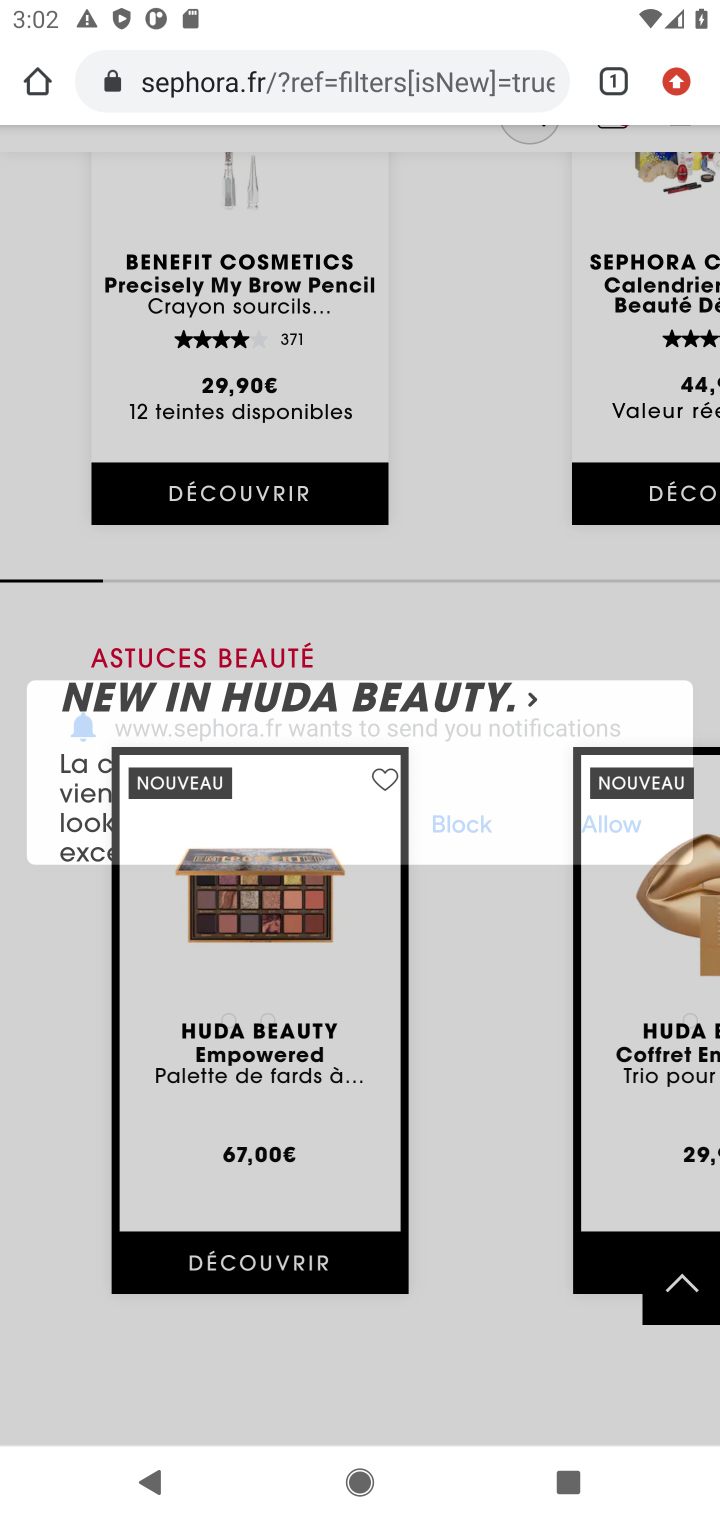
Step 35: drag from (408, 423) to (404, 165)
Your task to perform on an android device: Search for a new bronzer Image 36: 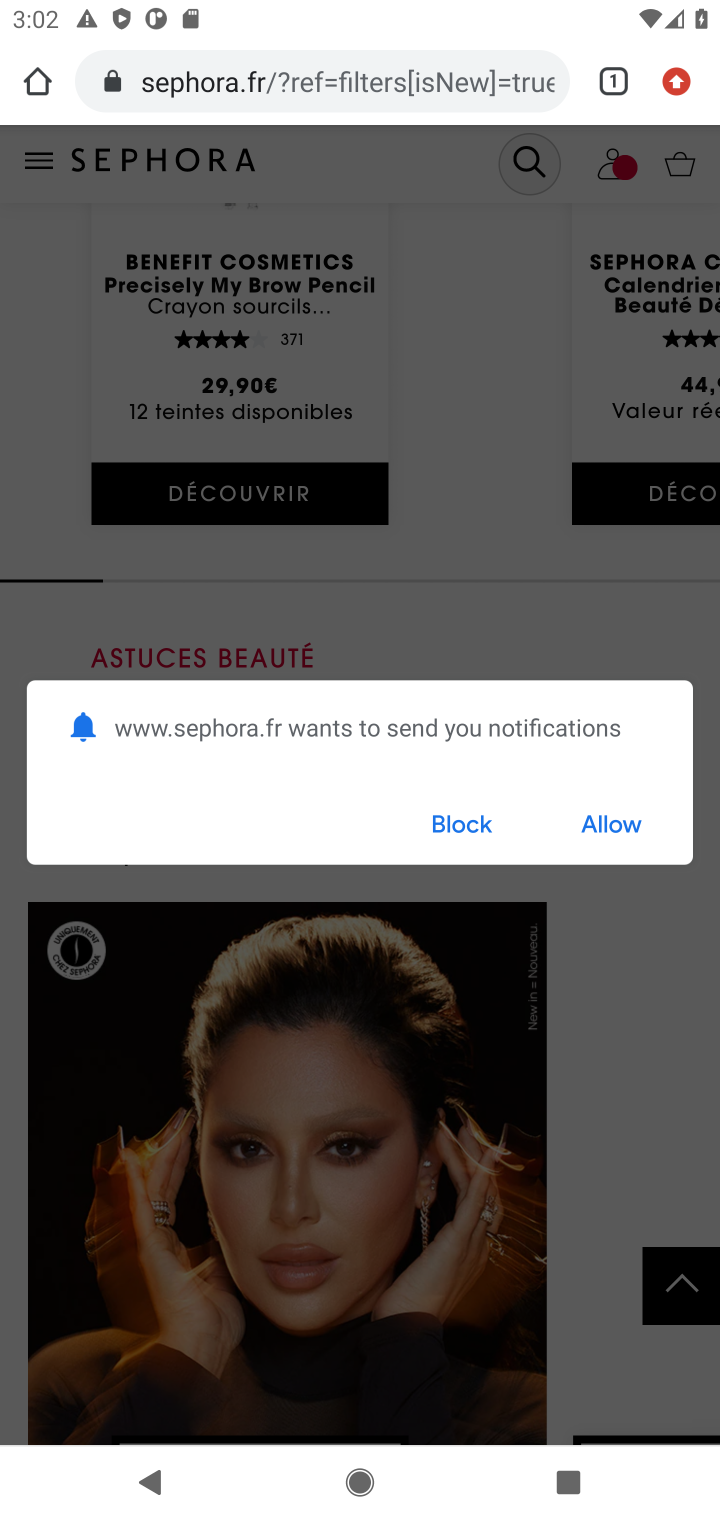
Step 36: drag from (500, 511) to (469, 806)
Your task to perform on an android device: Search for a new bronzer Image 37: 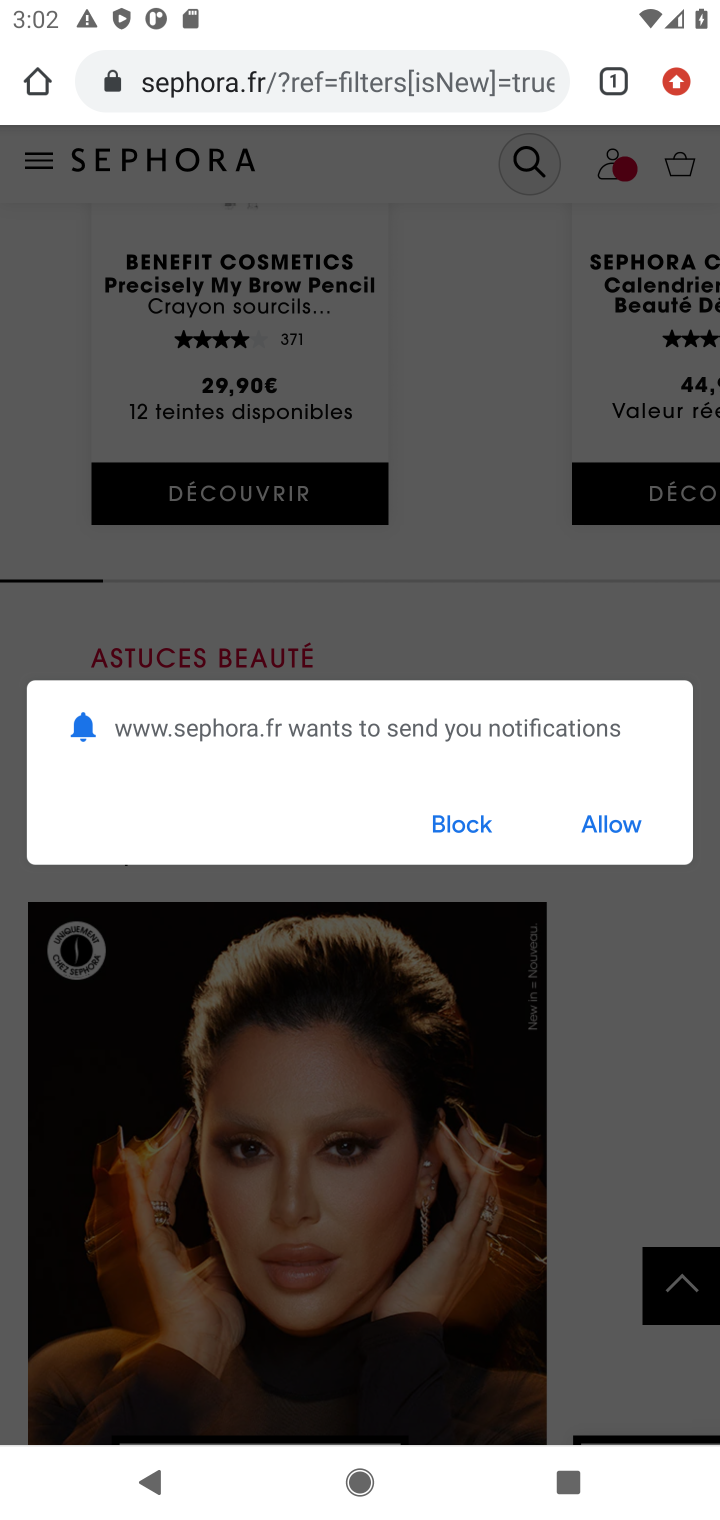
Step 37: click (469, 831)
Your task to perform on an android device: Search for a new bronzer Image 38: 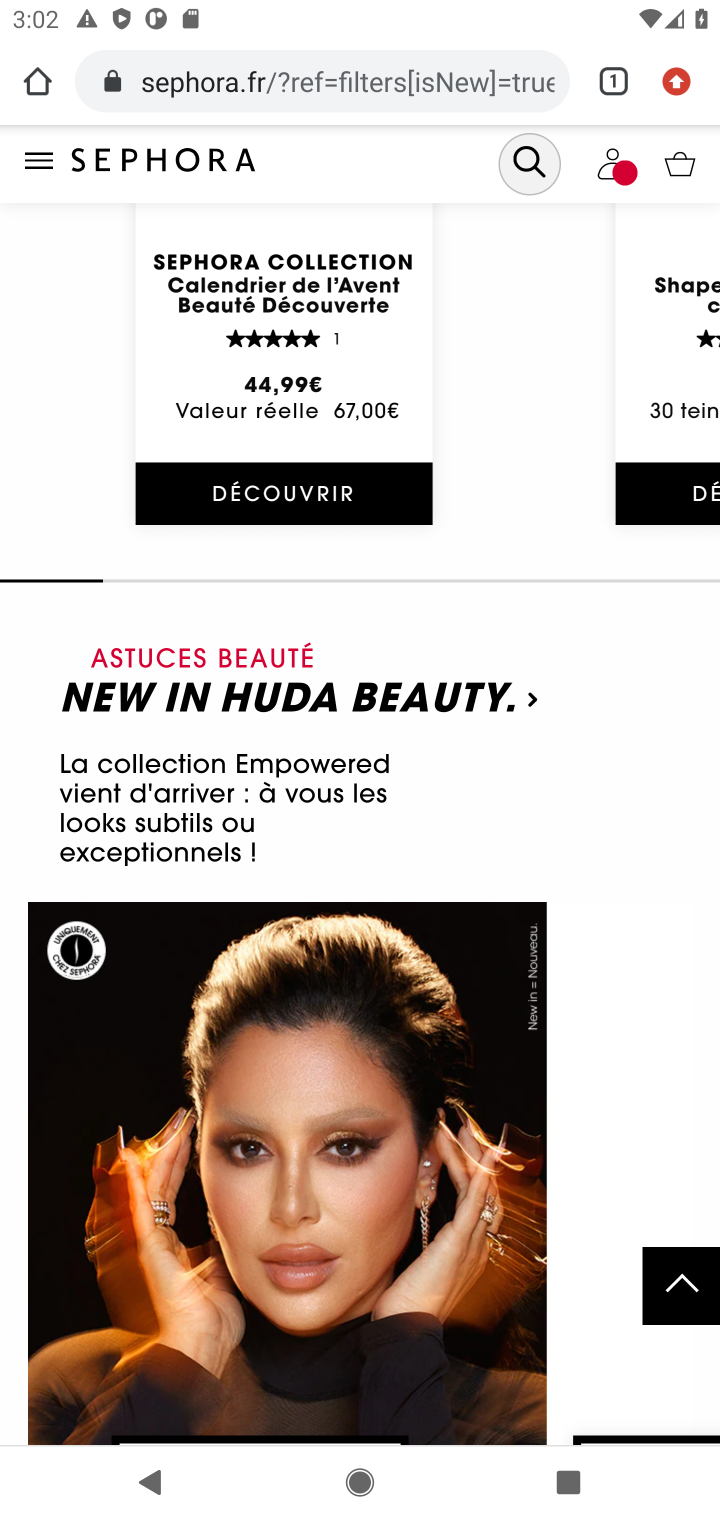
Step 38: drag from (558, 1183) to (599, 194)
Your task to perform on an android device: Search for a new bronzer Image 39: 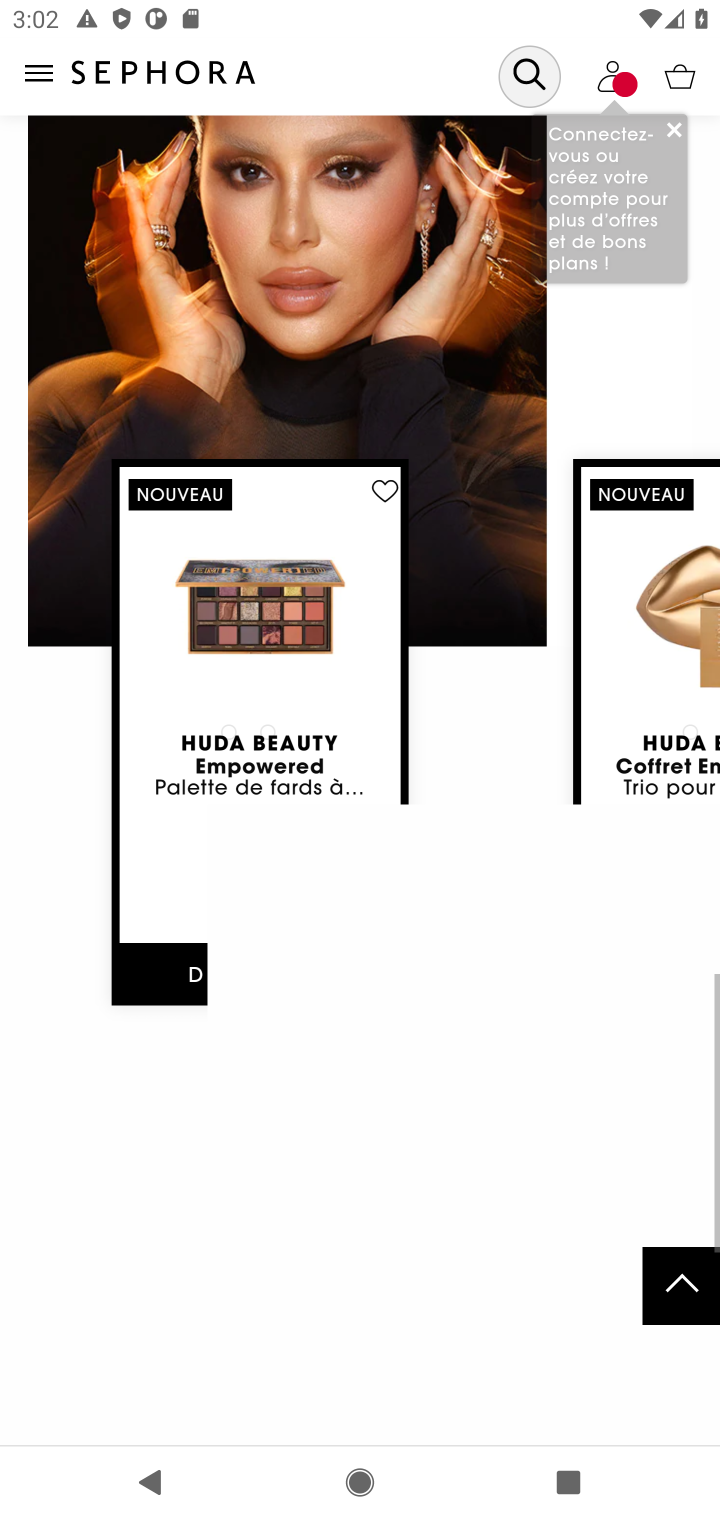
Step 39: drag from (559, 464) to (525, 365)
Your task to perform on an android device: Search for a new bronzer Image 40: 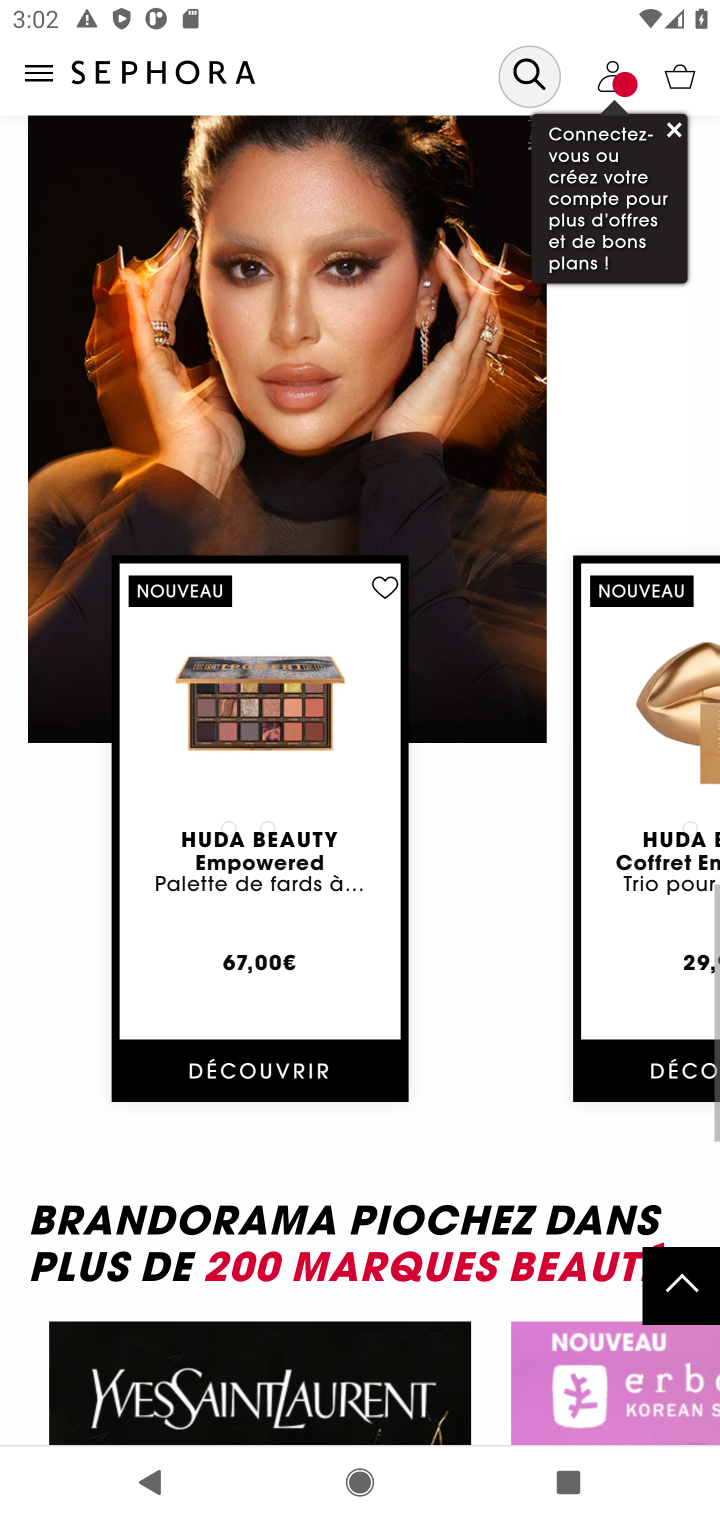
Step 40: drag from (521, 707) to (509, 327)
Your task to perform on an android device: Search for a new bronzer Image 41: 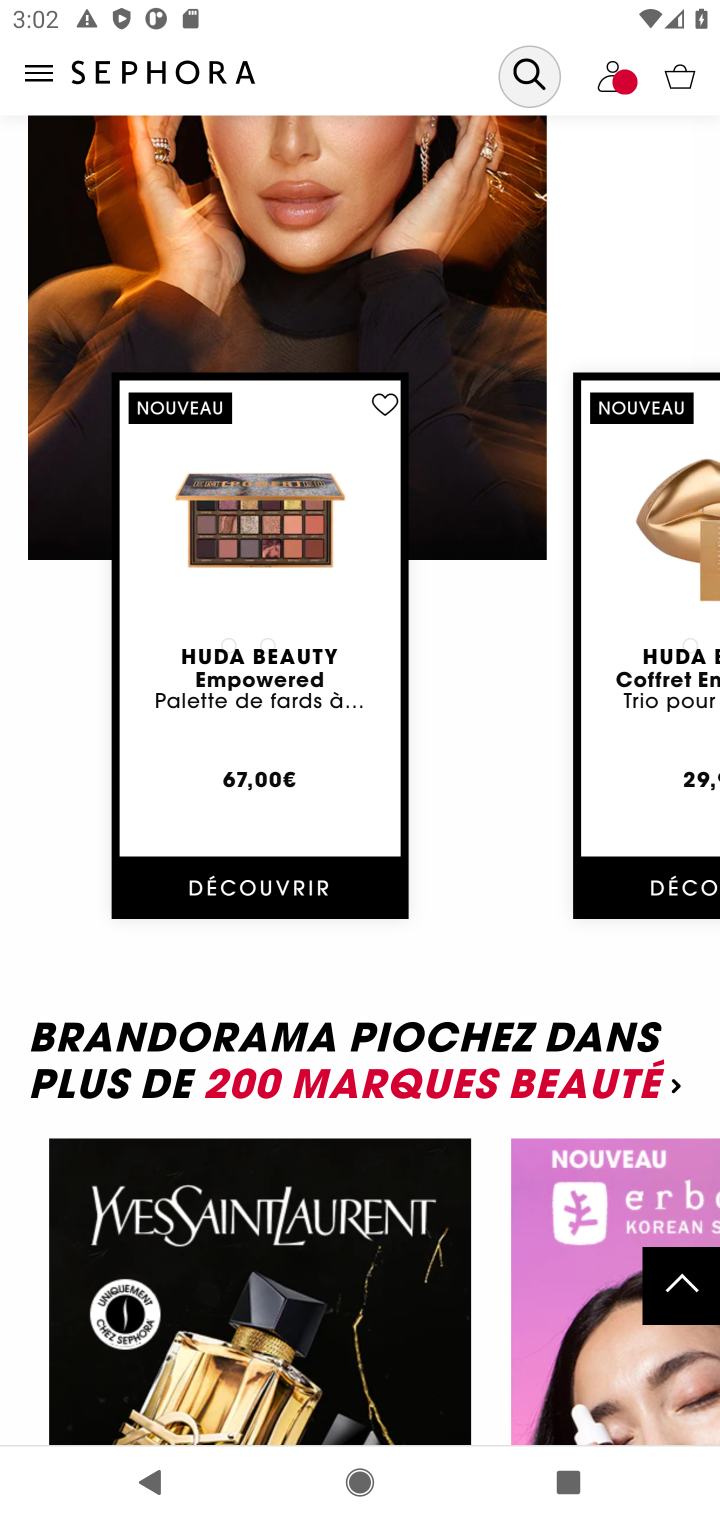
Step 41: drag from (500, 420) to (495, 273)
Your task to perform on an android device: Search for a new bronzer Image 42: 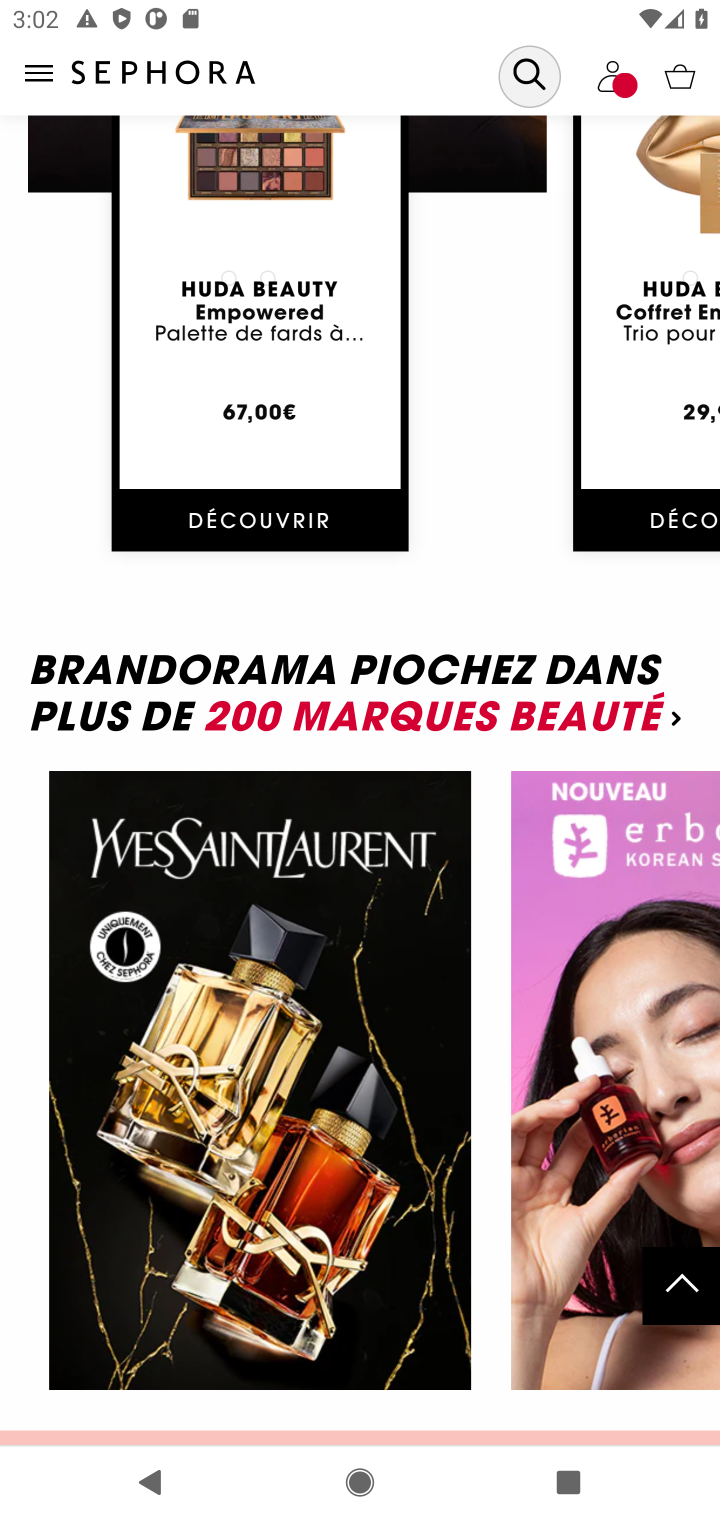
Step 42: drag from (544, 510) to (555, 282)
Your task to perform on an android device: Search for a new bronzer Image 43: 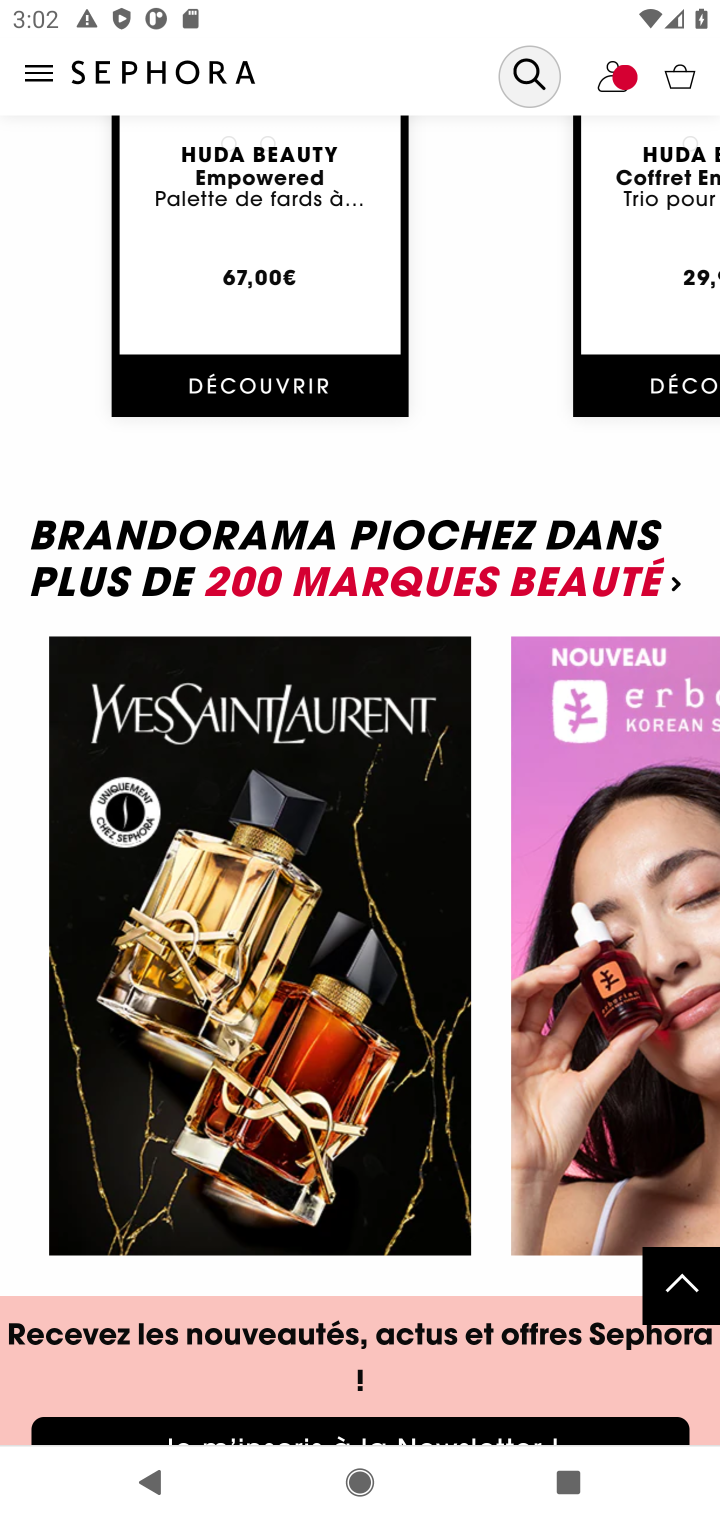
Step 43: drag from (531, 869) to (458, 402)
Your task to perform on an android device: Search for a new bronzer Image 44: 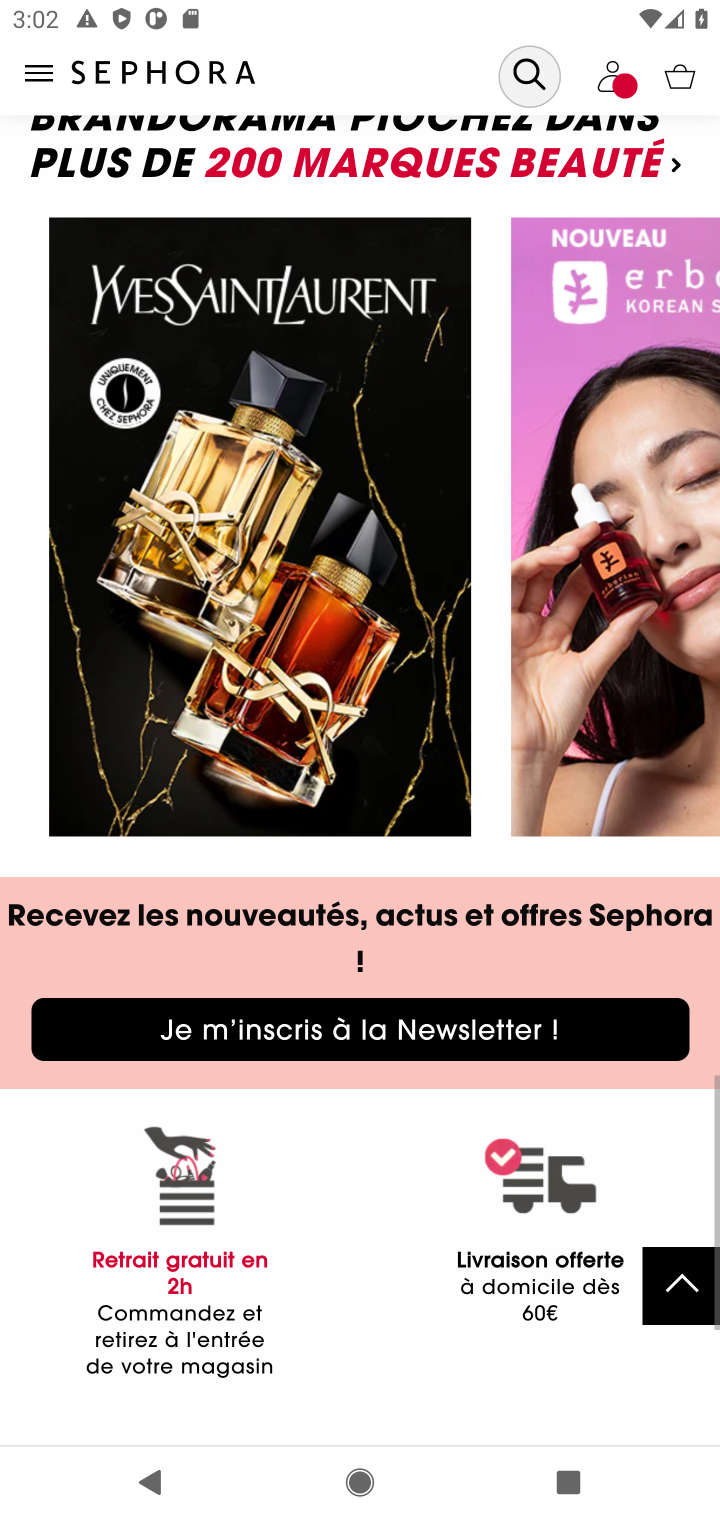
Step 44: click (494, 433)
Your task to perform on an android device: Search for a new bronzer Image 45: 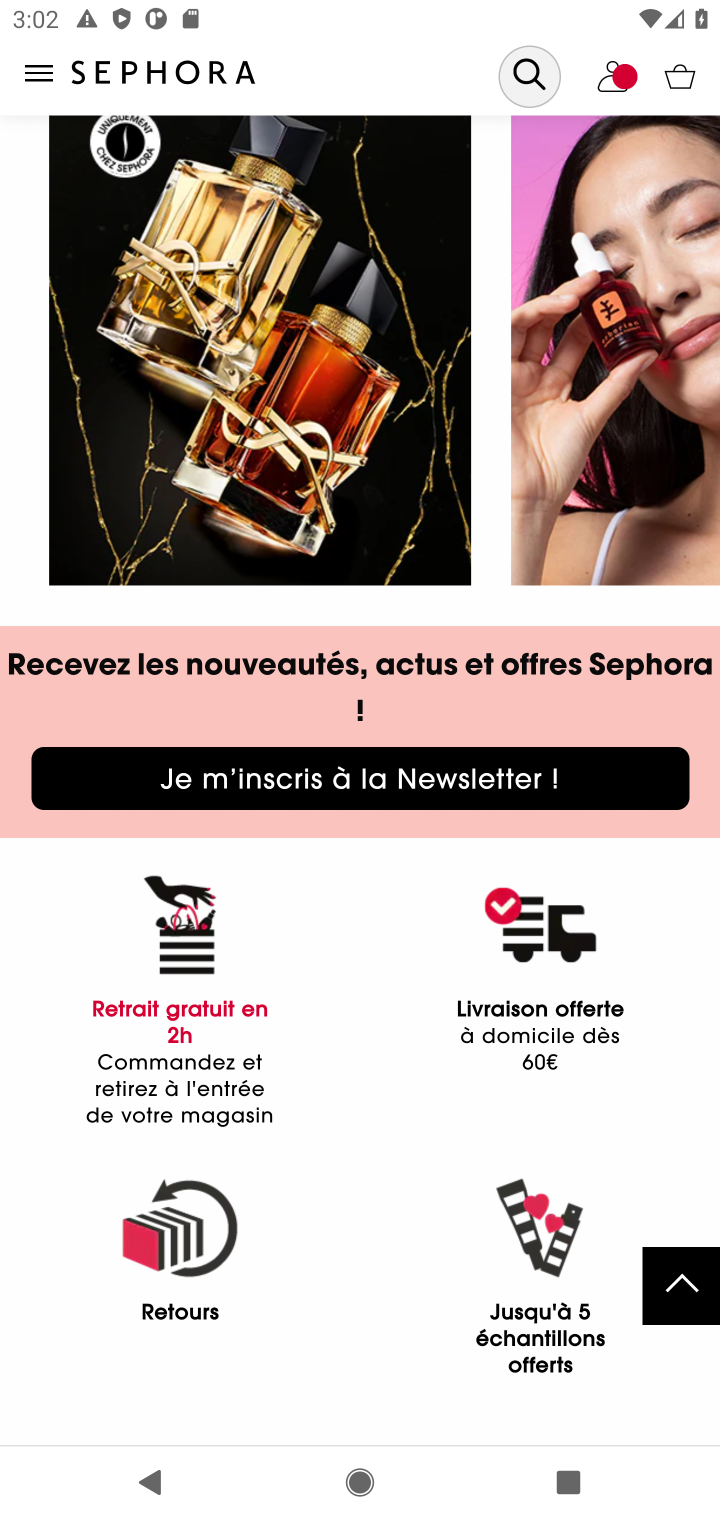
Step 45: drag from (375, 443) to (359, 241)
Your task to perform on an android device: Search for a new bronzer Image 46: 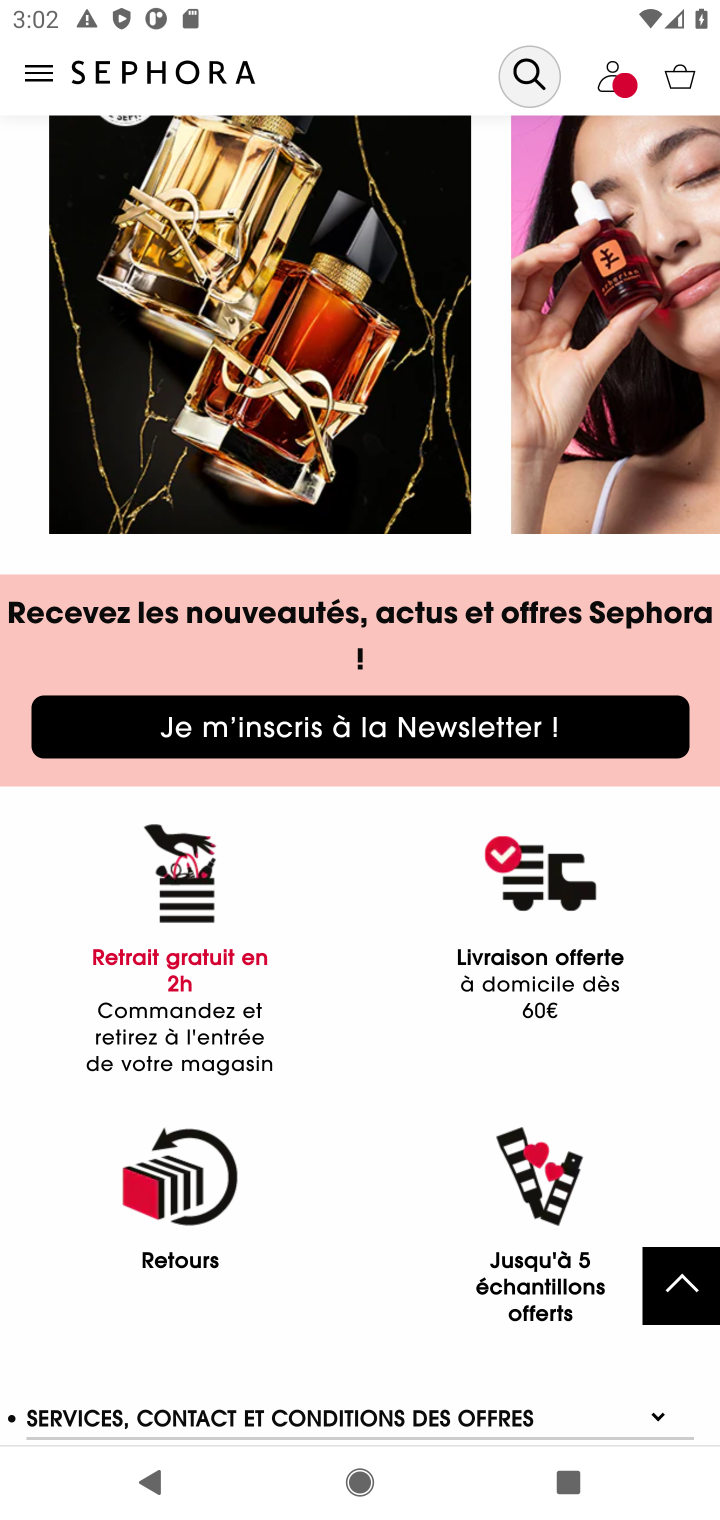
Step 46: drag from (321, 641) to (323, 309)
Your task to perform on an android device: Search for a new bronzer Image 47: 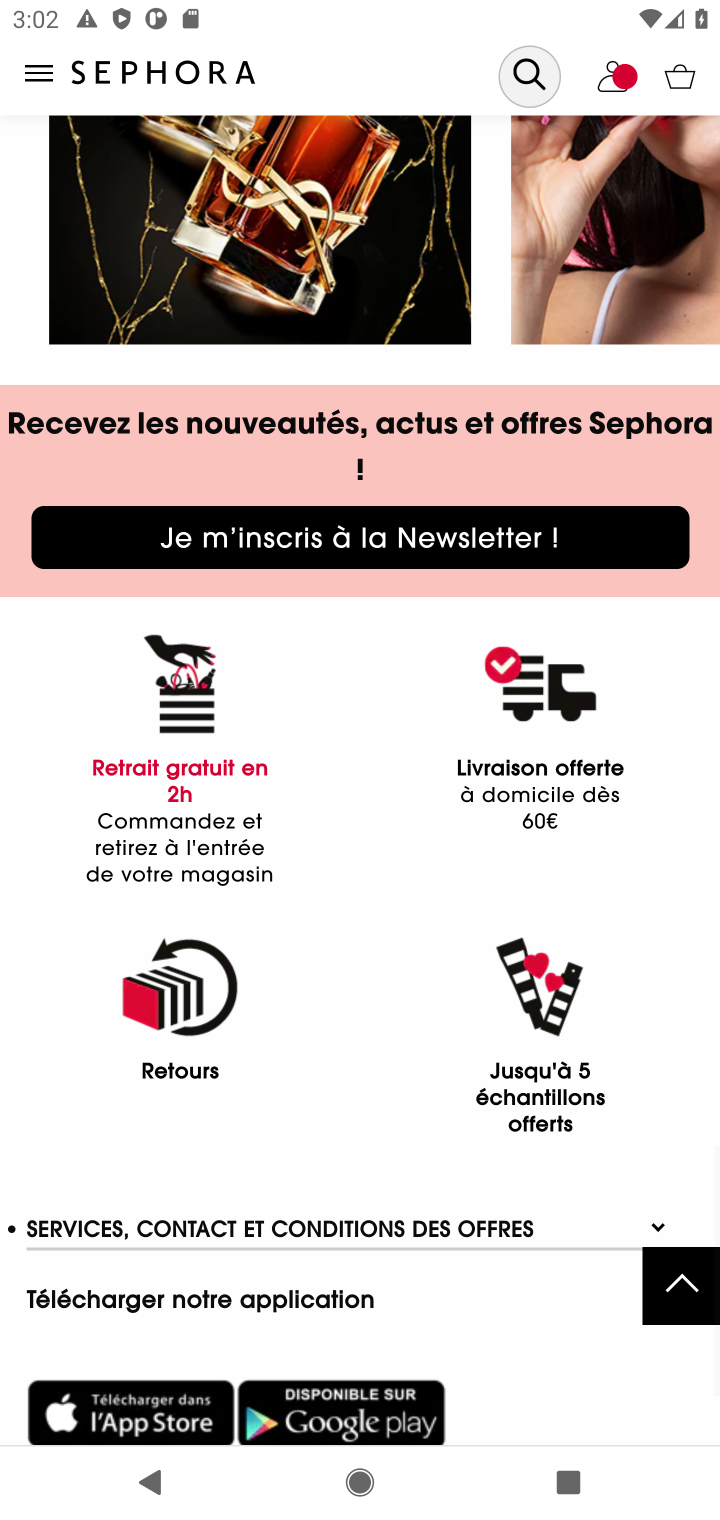
Step 47: drag from (359, 511) to (406, 282)
Your task to perform on an android device: Search for a new bronzer Image 48: 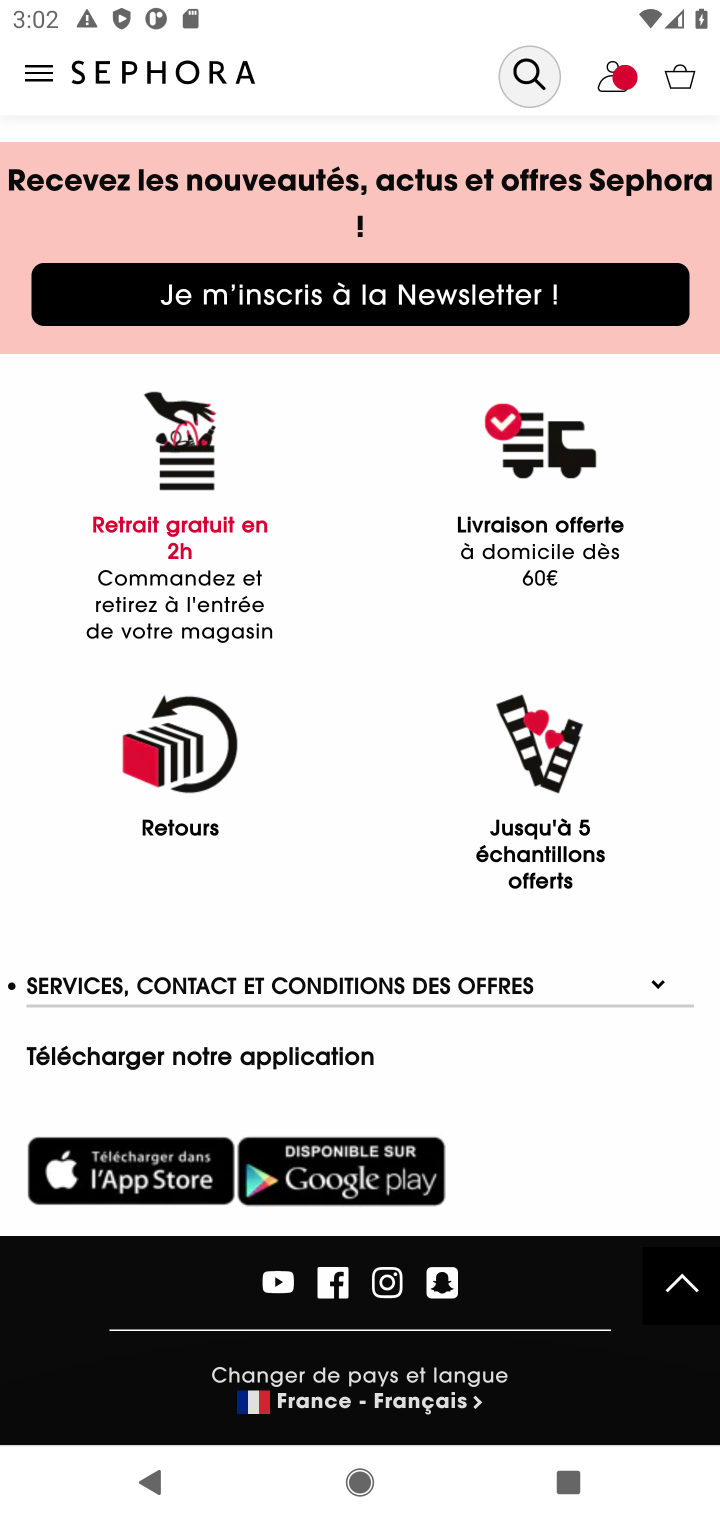
Step 48: drag from (410, 721) to (400, 312)
Your task to perform on an android device: Search for a new bronzer Image 49: 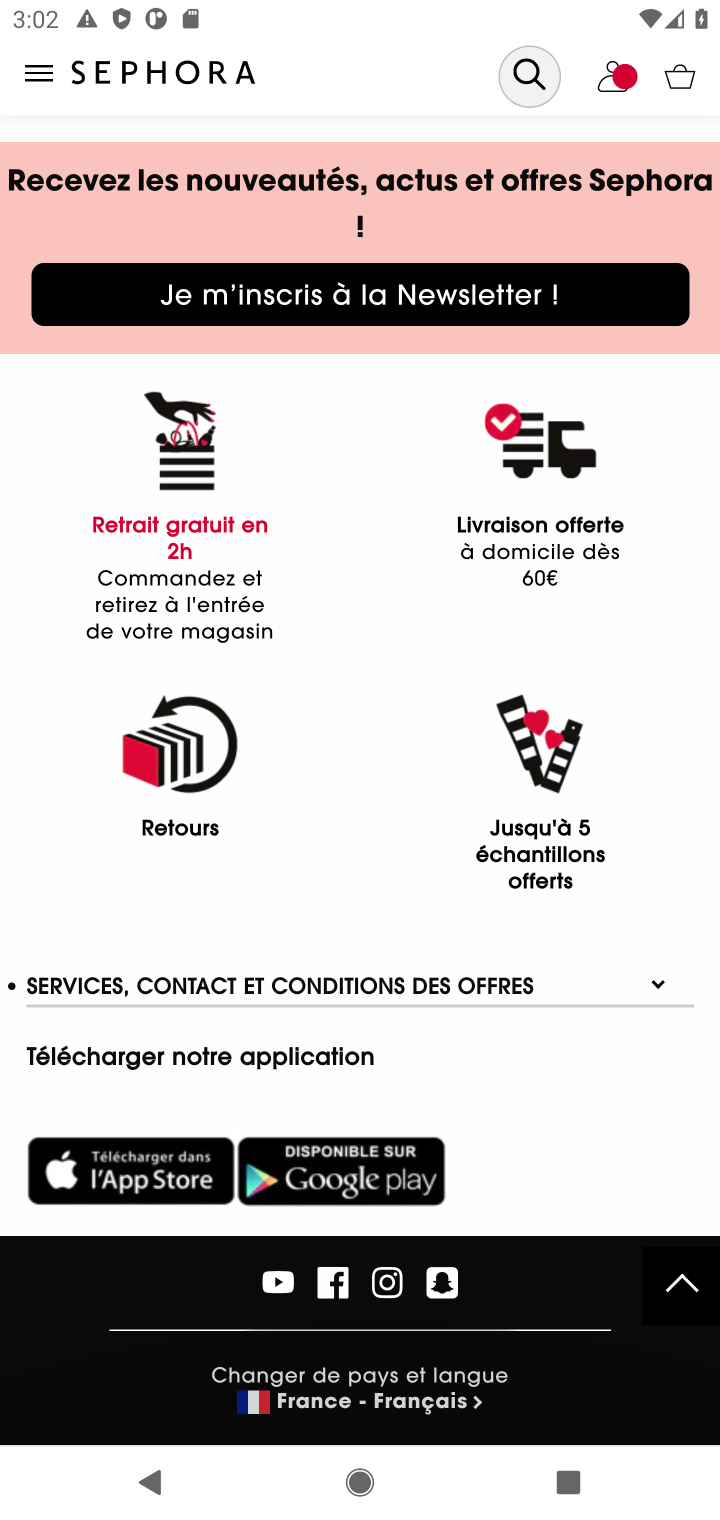
Step 49: drag from (416, 422) to (413, 294)
Your task to perform on an android device: Search for a new bronzer Image 50: 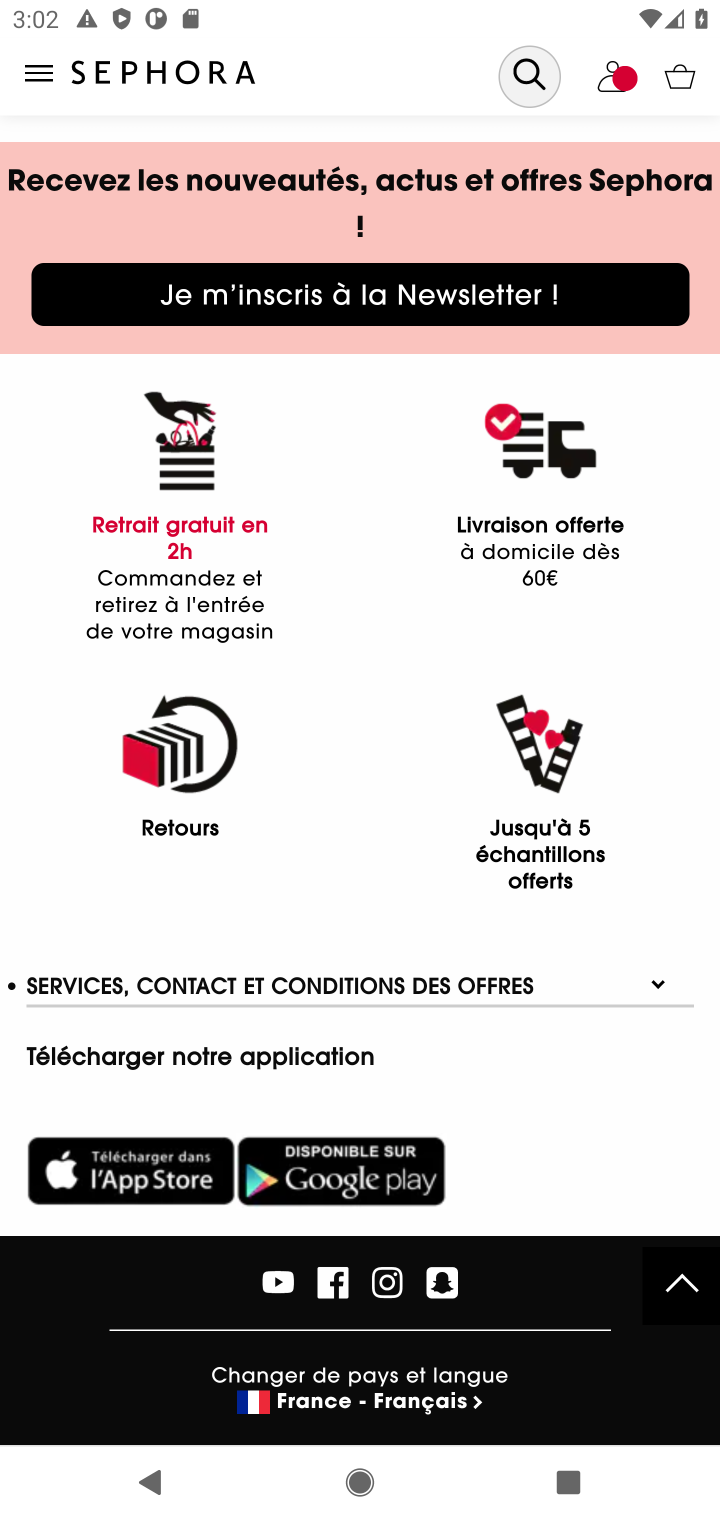
Step 50: drag from (463, 761) to (463, 433)
Your task to perform on an android device: Search for a new bronzer Image 51: 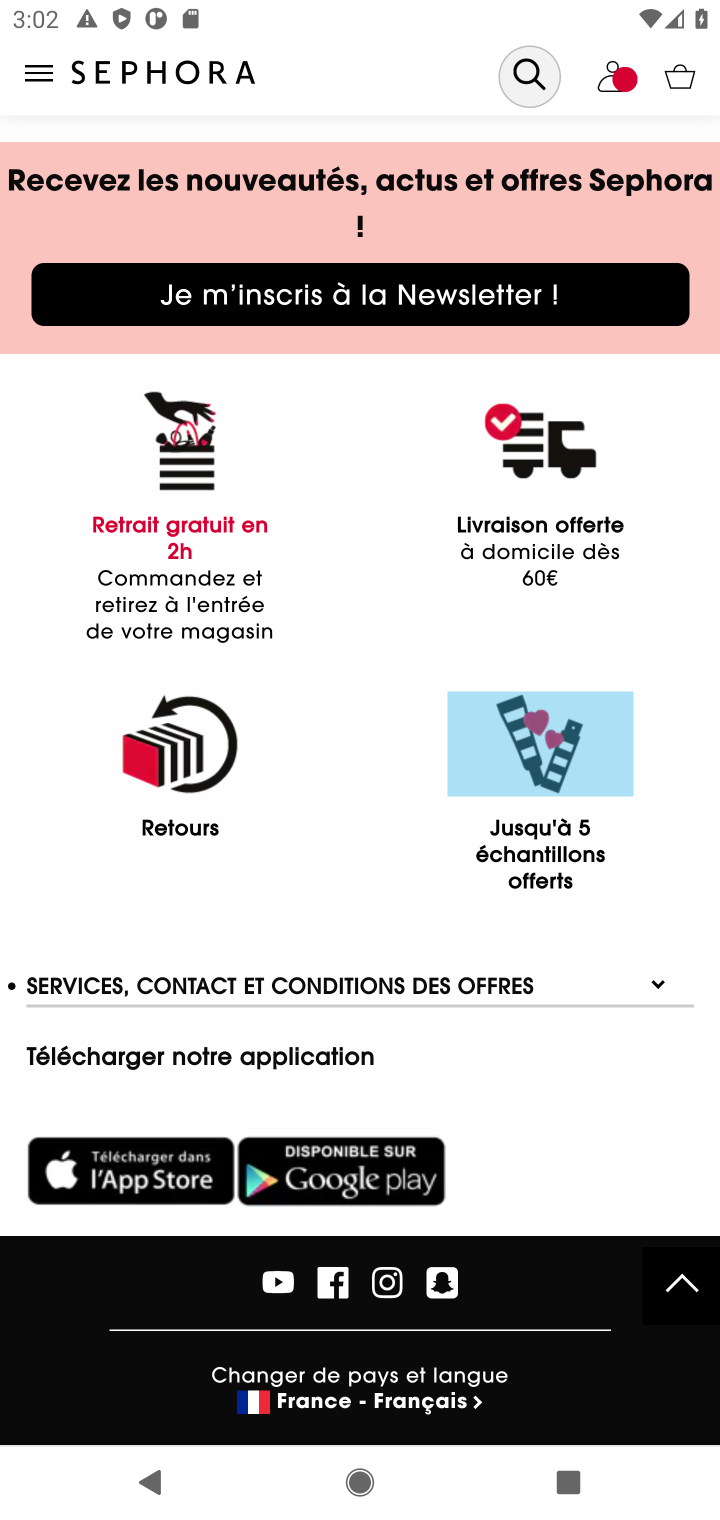
Step 51: click (418, 515)
Your task to perform on an android device: Search for a new bronzer Image 52: 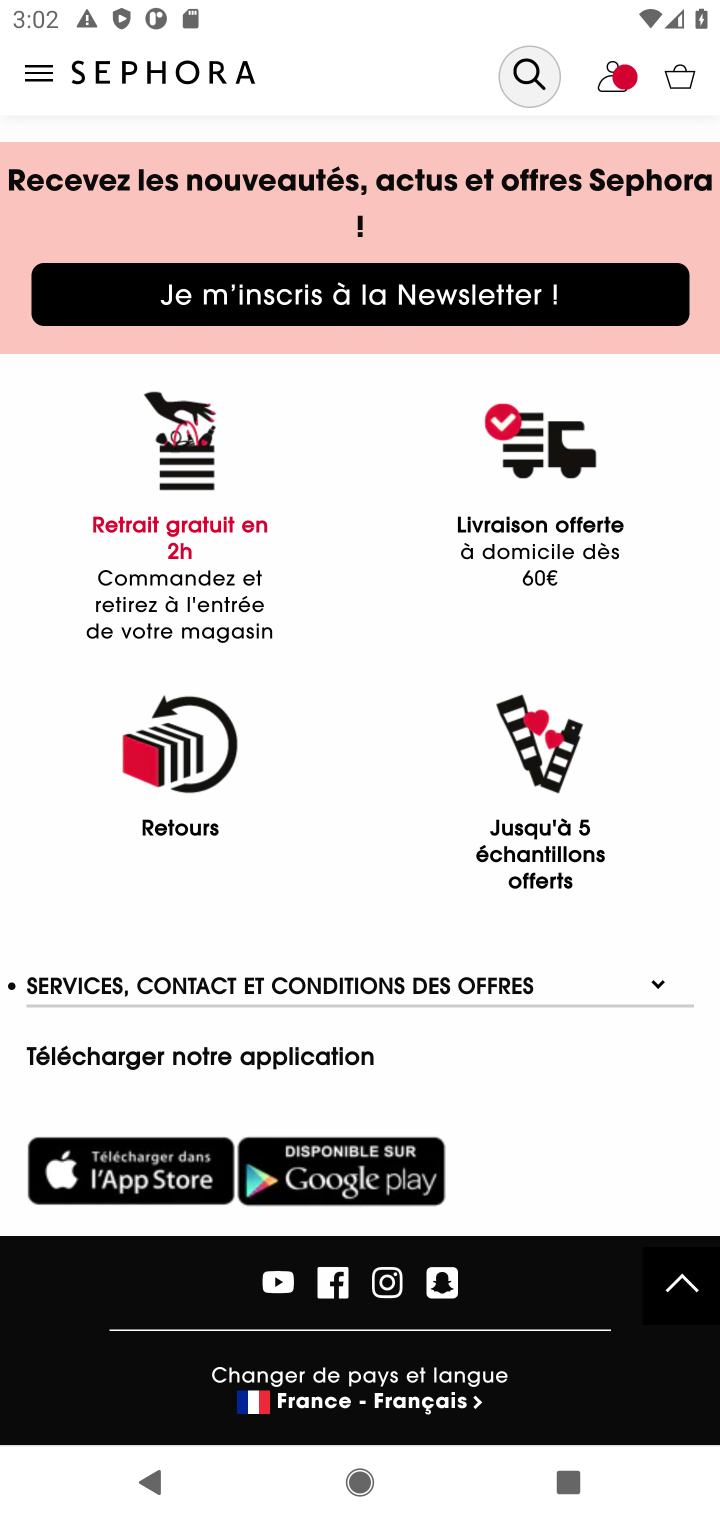
Step 52: task complete